Your task to perform on an android device: How much does a 3 bedroom apartment rent for in Chicago? Image 0: 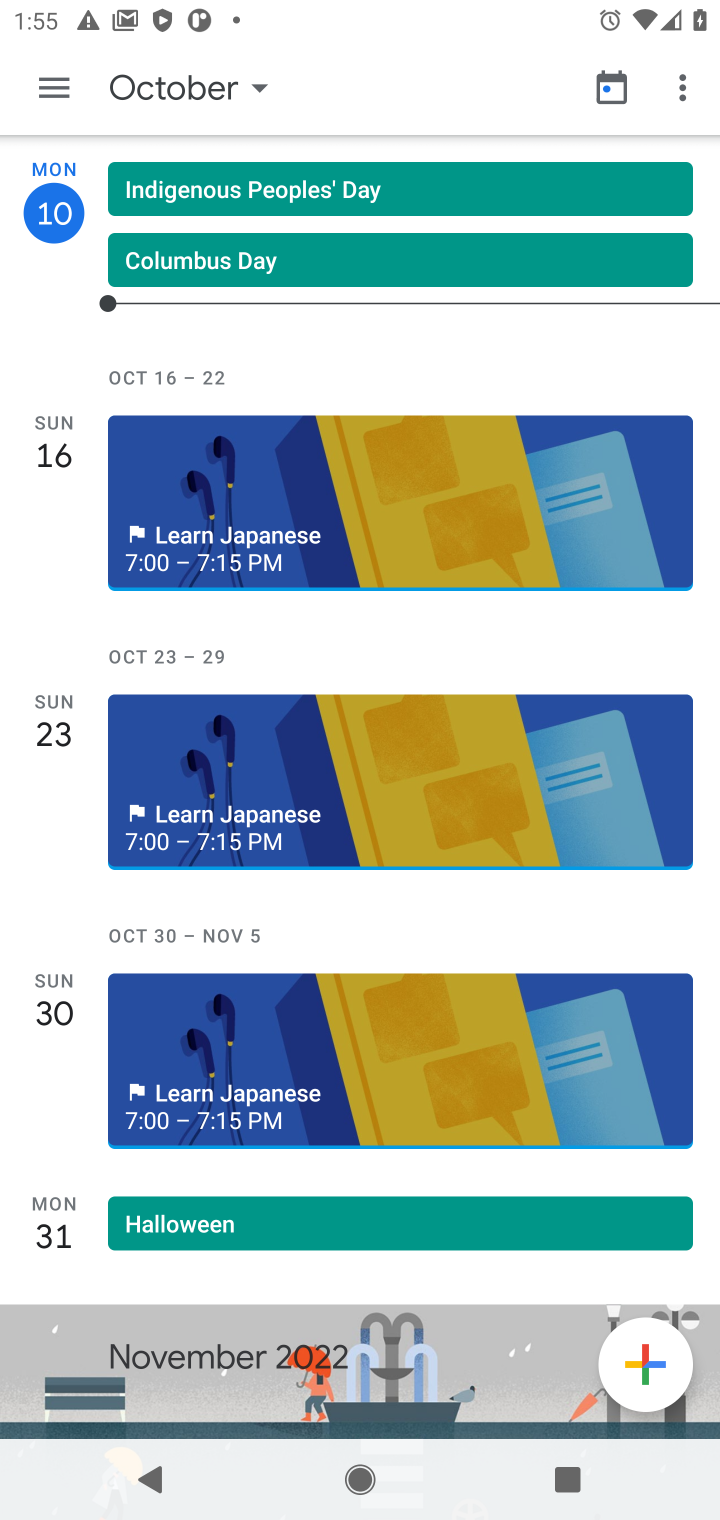
Step 0: press home button
Your task to perform on an android device: How much does a 3 bedroom apartment rent for in Chicago? Image 1: 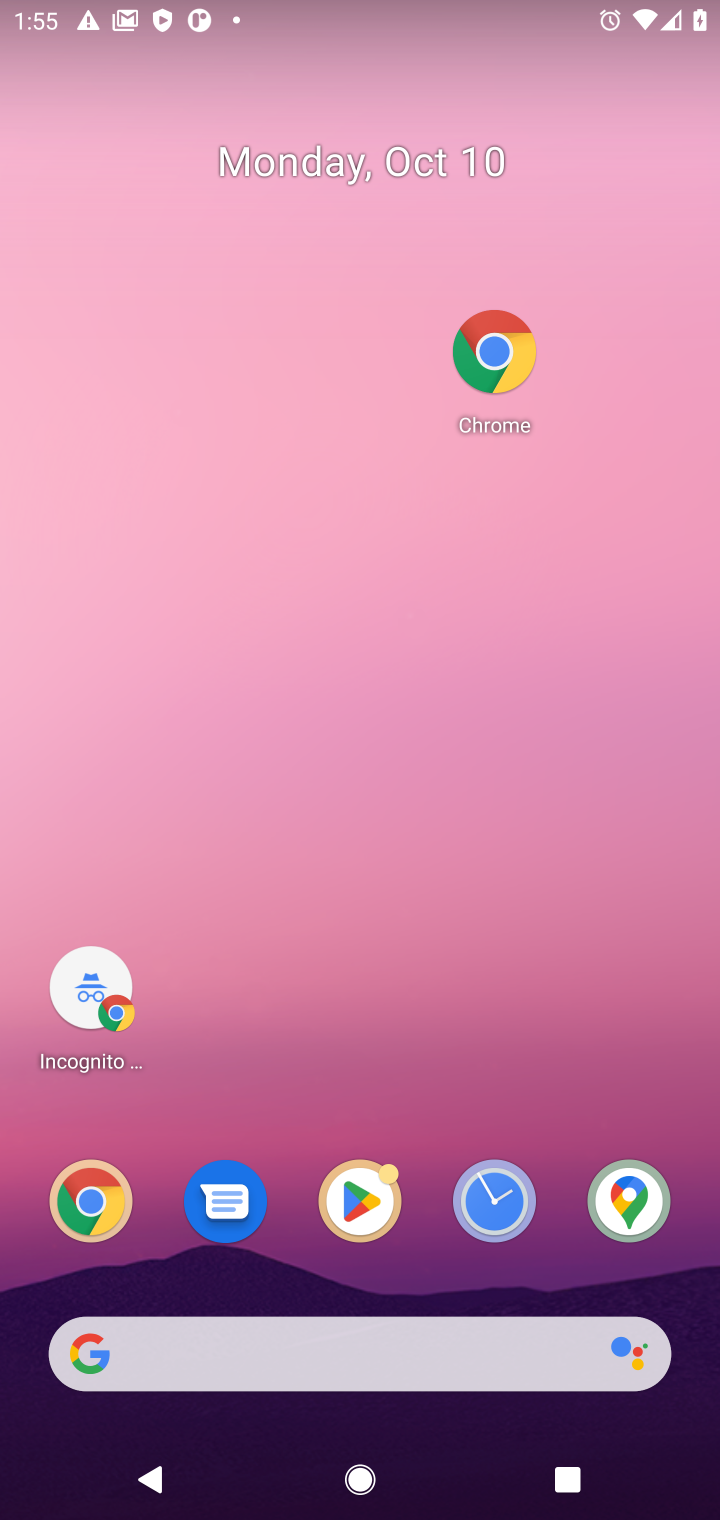
Step 1: click (487, 357)
Your task to perform on an android device: How much does a 3 bedroom apartment rent for in Chicago? Image 2: 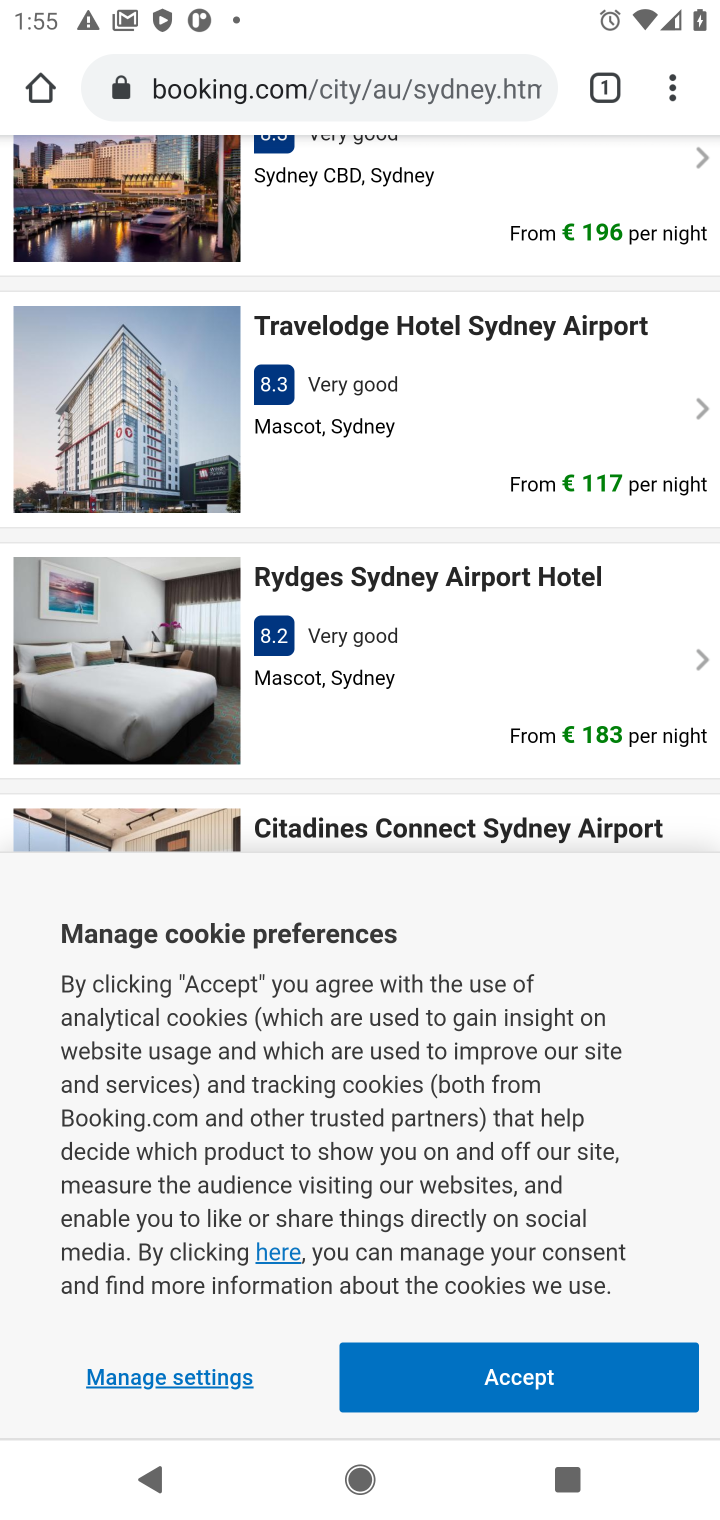
Step 2: click (344, 86)
Your task to perform on an android device: How much does a 3 bedroom apartment rent for in Chicago? Image 3: 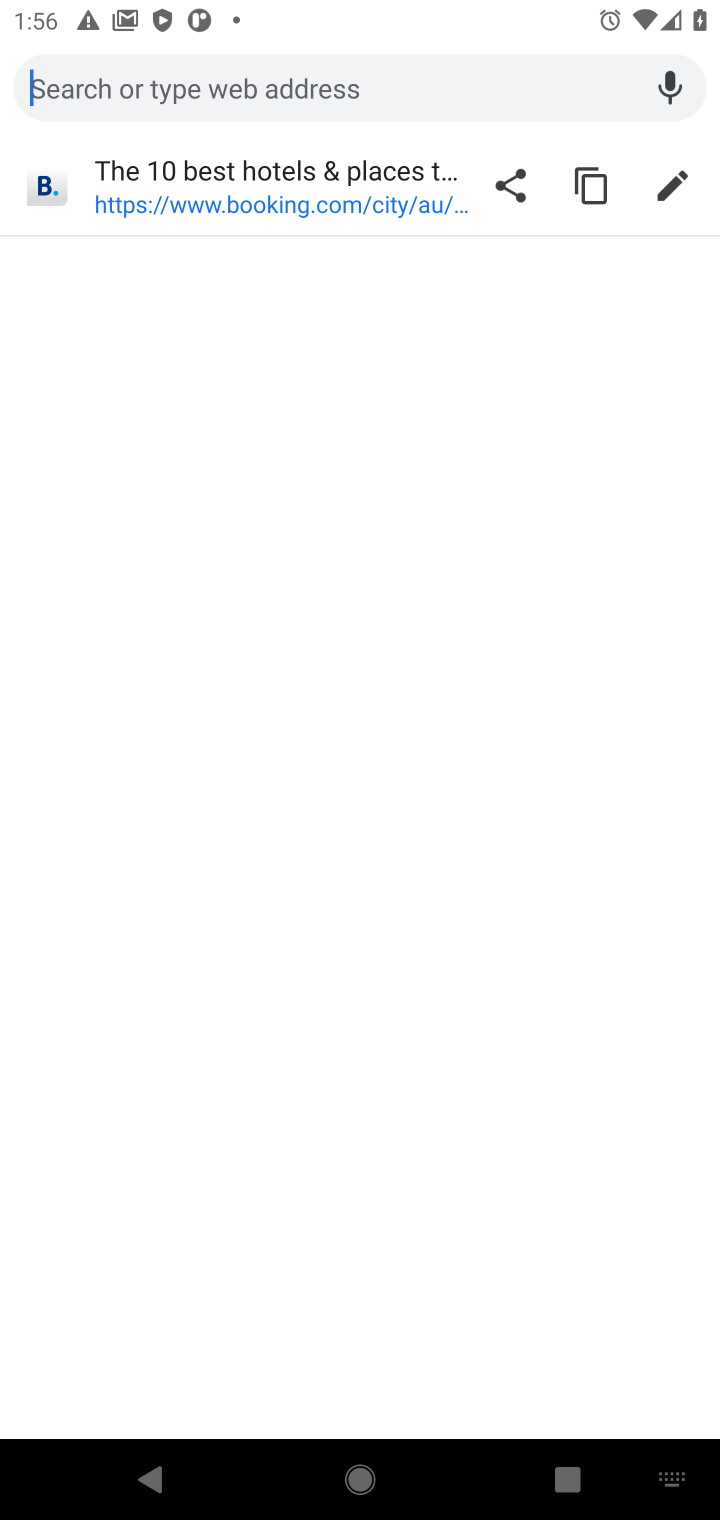
Step 3: type "rent for 3 bedroom apartment in chicago"
Your task to perform on an android device: How much does a 3 bedroom apartment rent for in Chicago? Image 4: 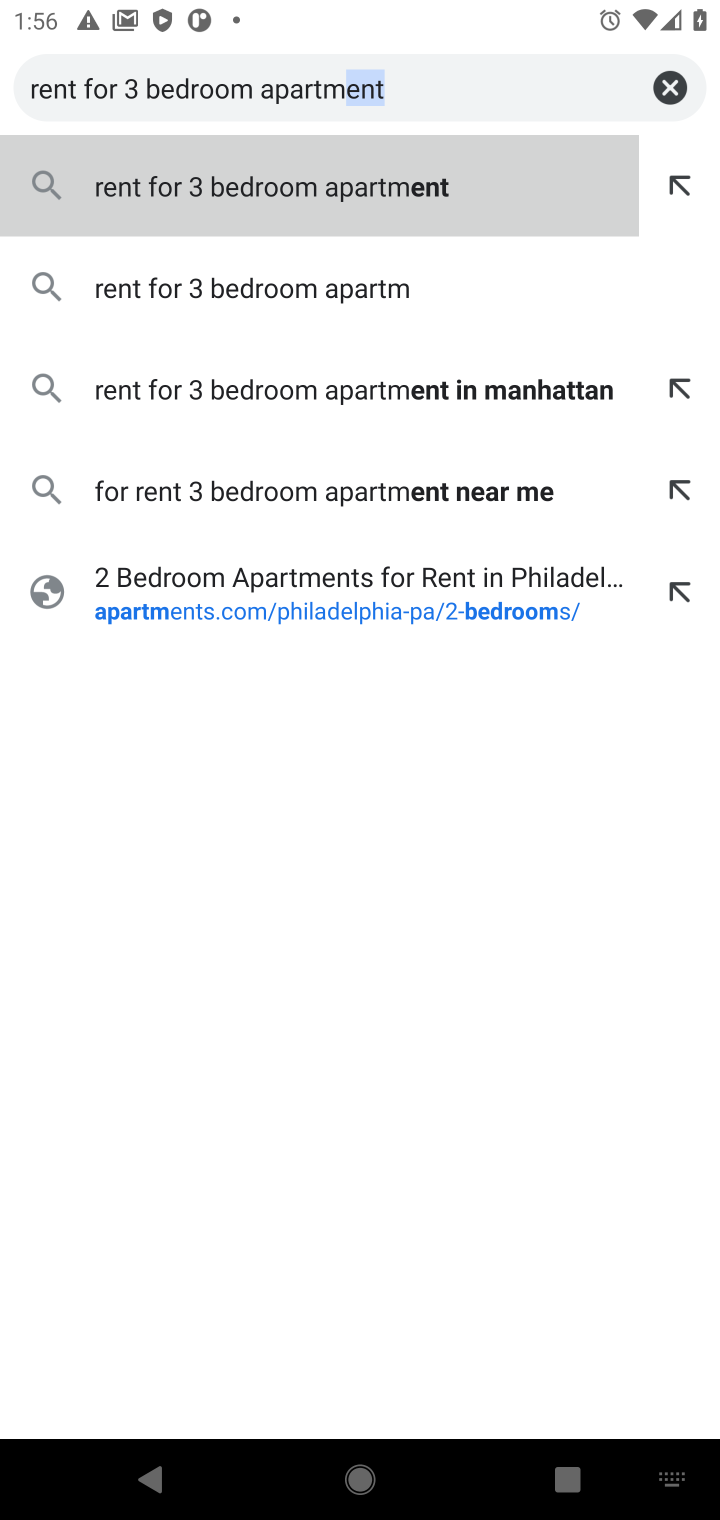
Step 4: click (411, 95)
Your task to perform on an android device: How much does a 3 bedroom apartment rent for in Chicago? Image 5: 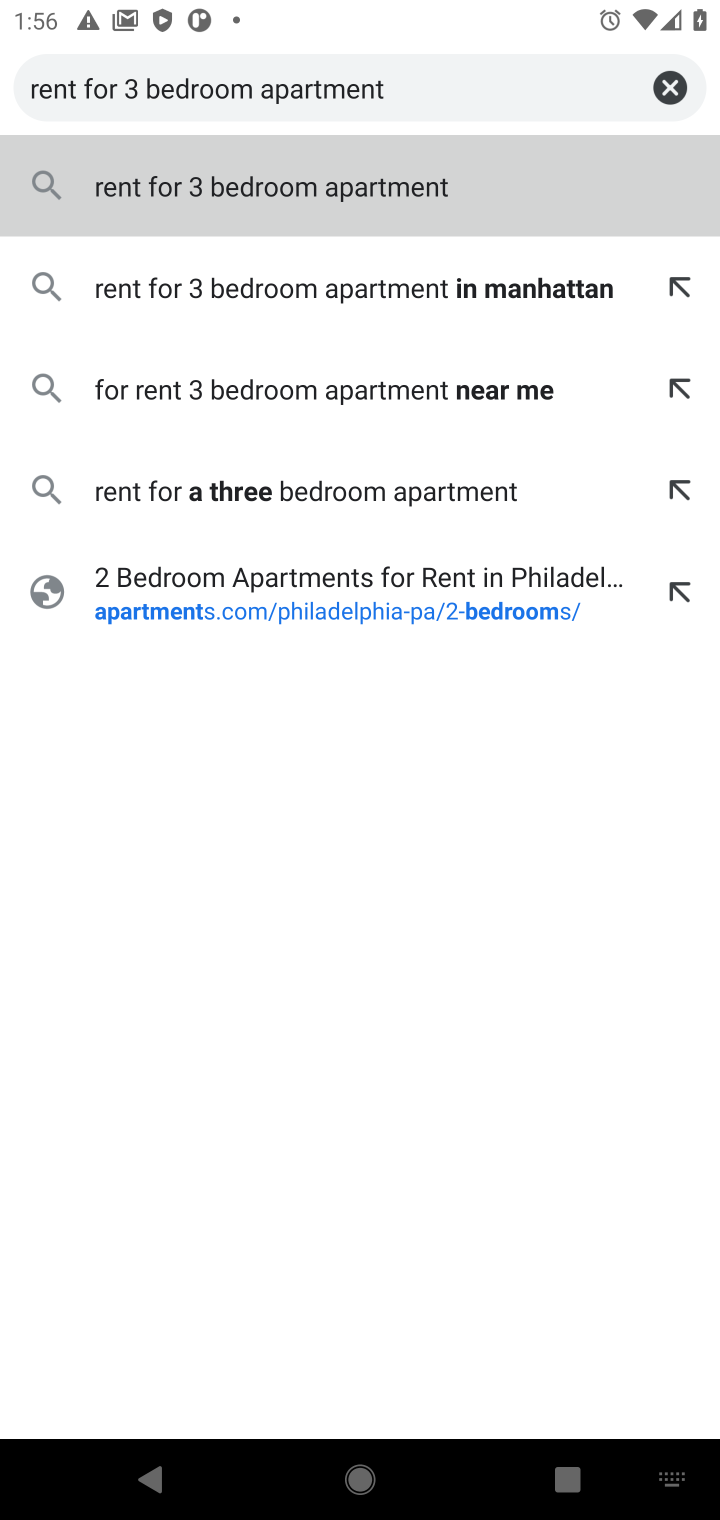
Step 5: type " in chicago"
Your task to perform on an android device: How much does a 3 bedroom apartment rent for in Chicago? Image 6: 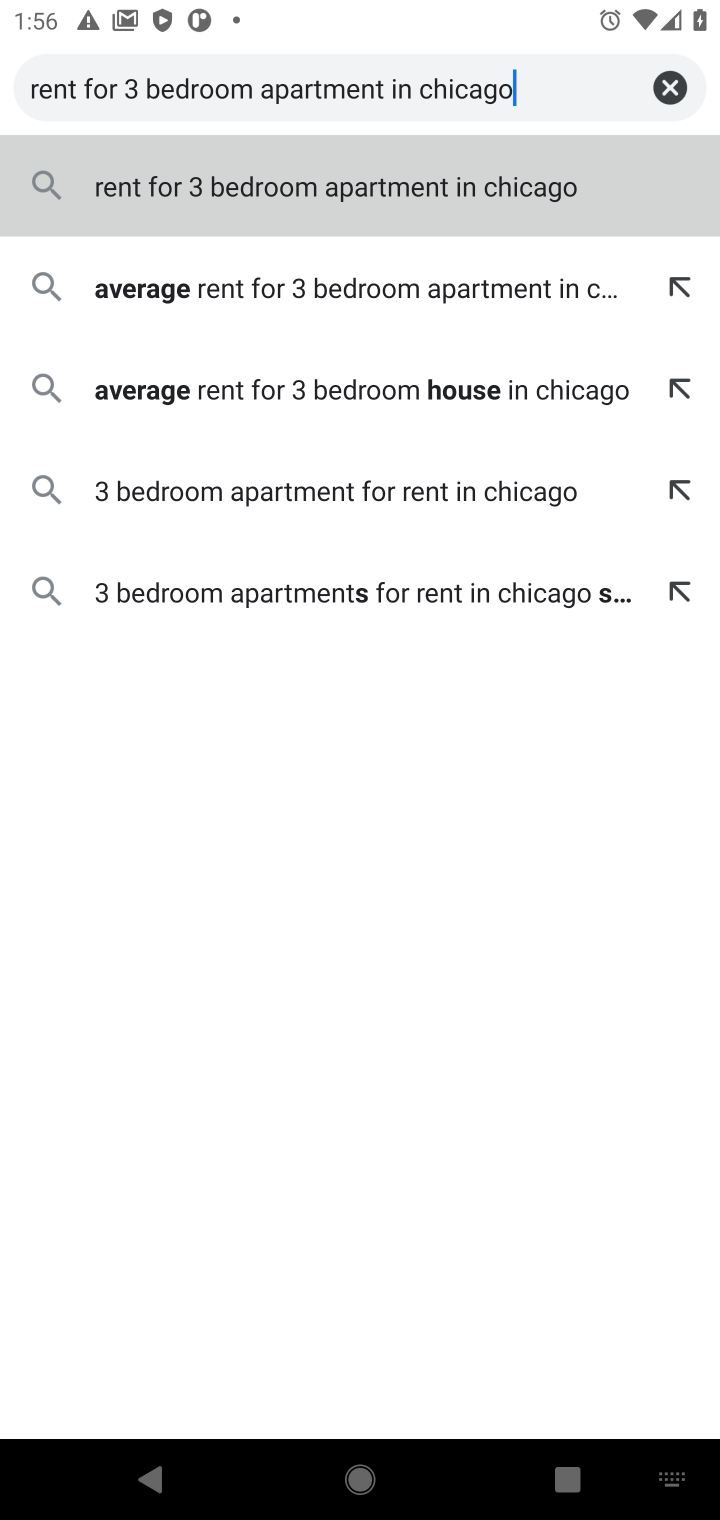
Step 6: click (402, 182)
Your task to perform on an android device: How much does a 3 bedroom apartment rent for in Chicago? Image 7: 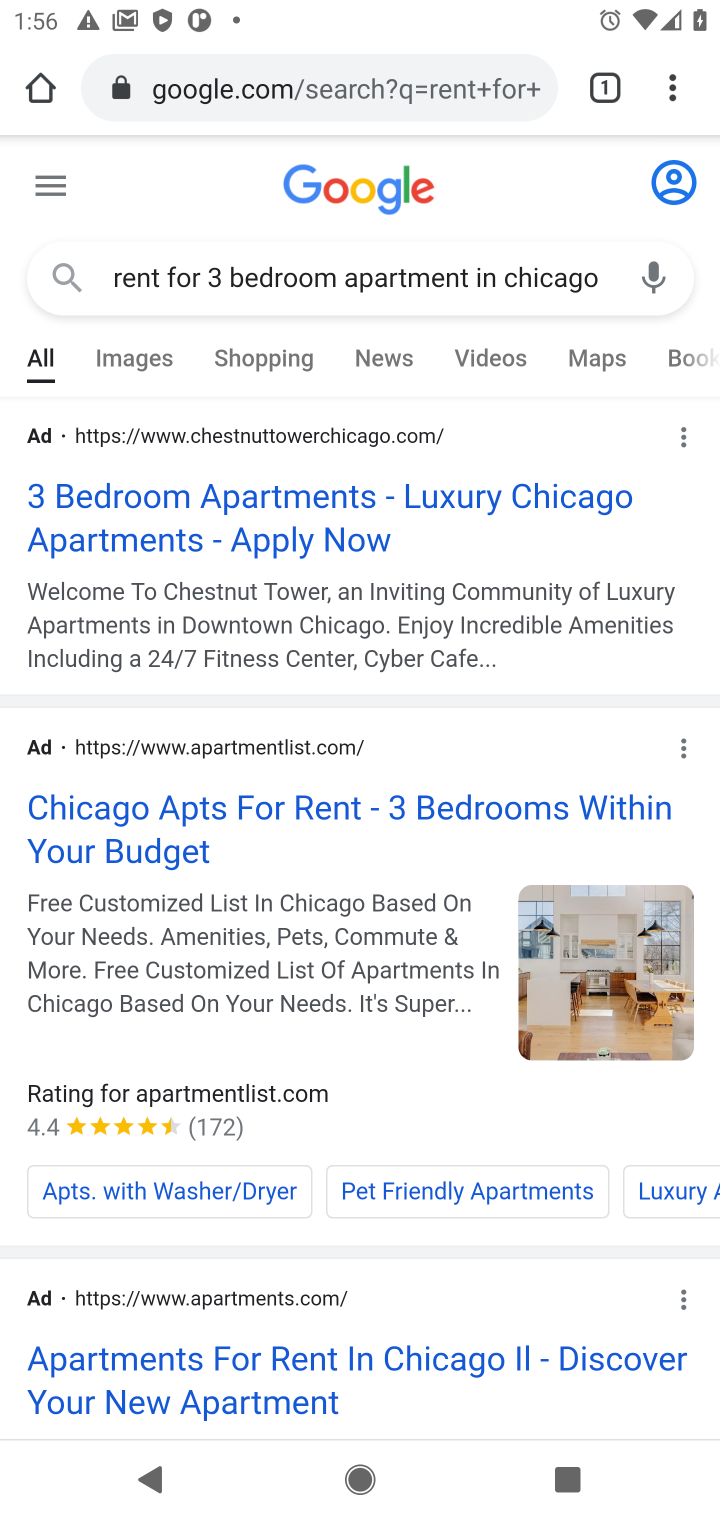
Step 7: click (214, 542)
Your task to perform on an android device: How much does a 3 bedroom apartment rent for in Chicago? Image 8: 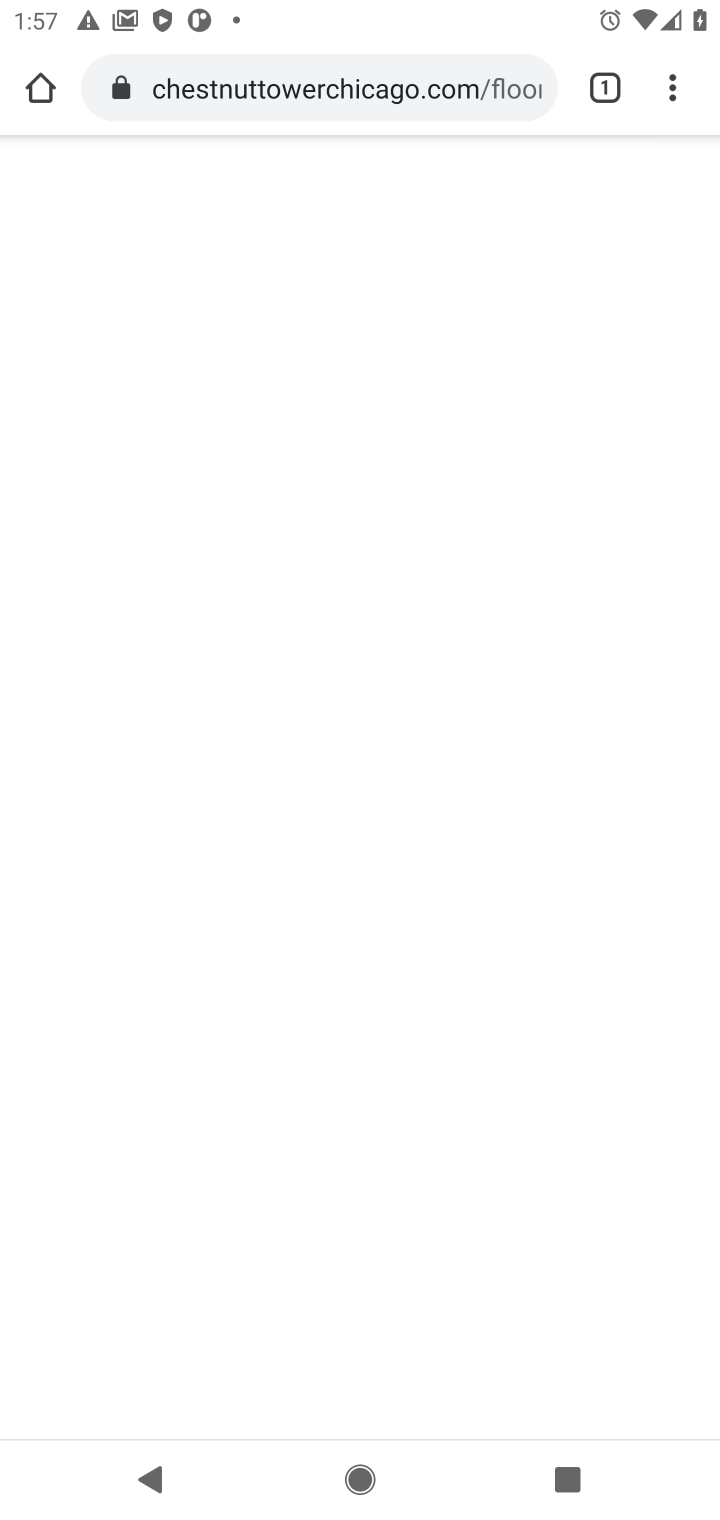
Step 8: press back button
Your task to perform on an android device: How much does a 3 bedroom apartment rent for in Chicago? Image 9: 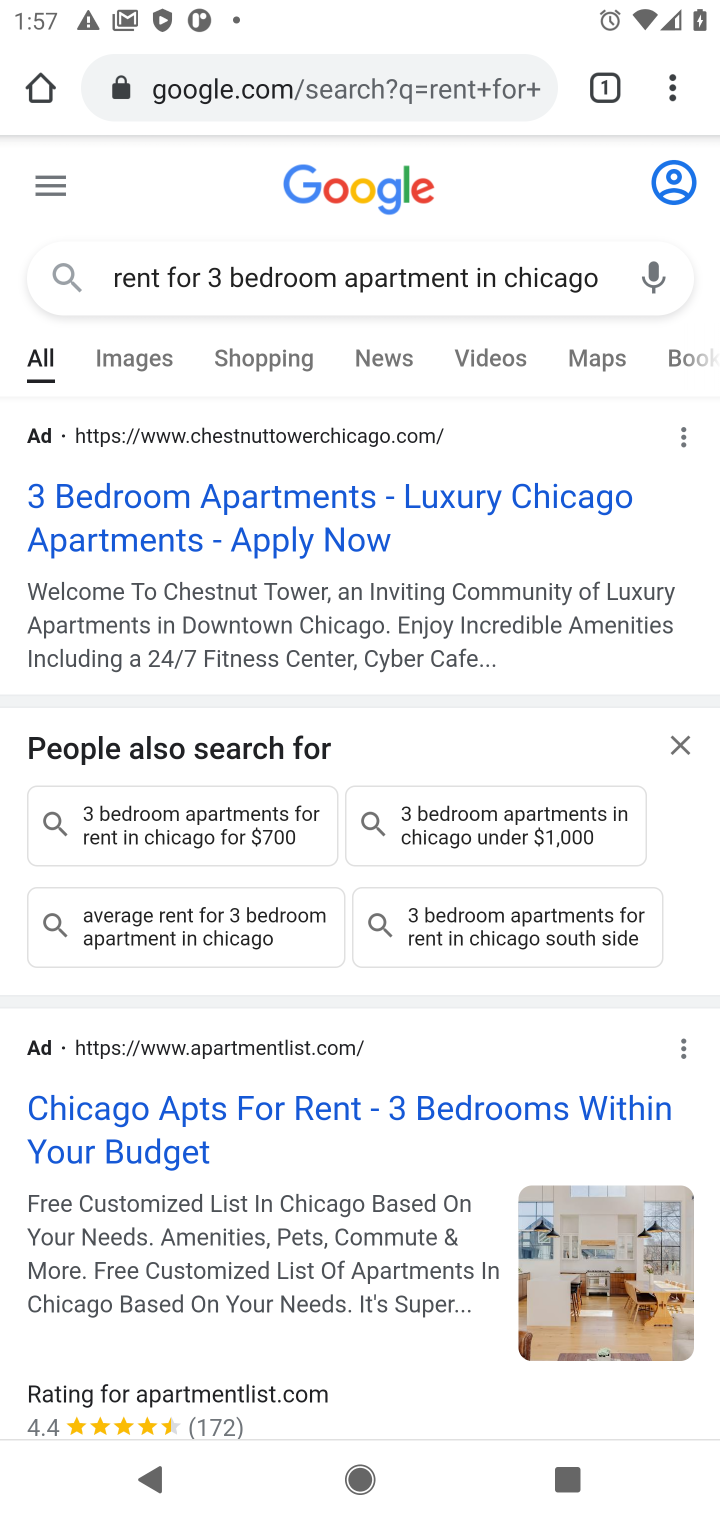
Step 9: drag from (293, 1280) to (354, 869)
Your task to perform on an android device: How much does a 3 bedroom apartment rent for in Chicago? Image 10: 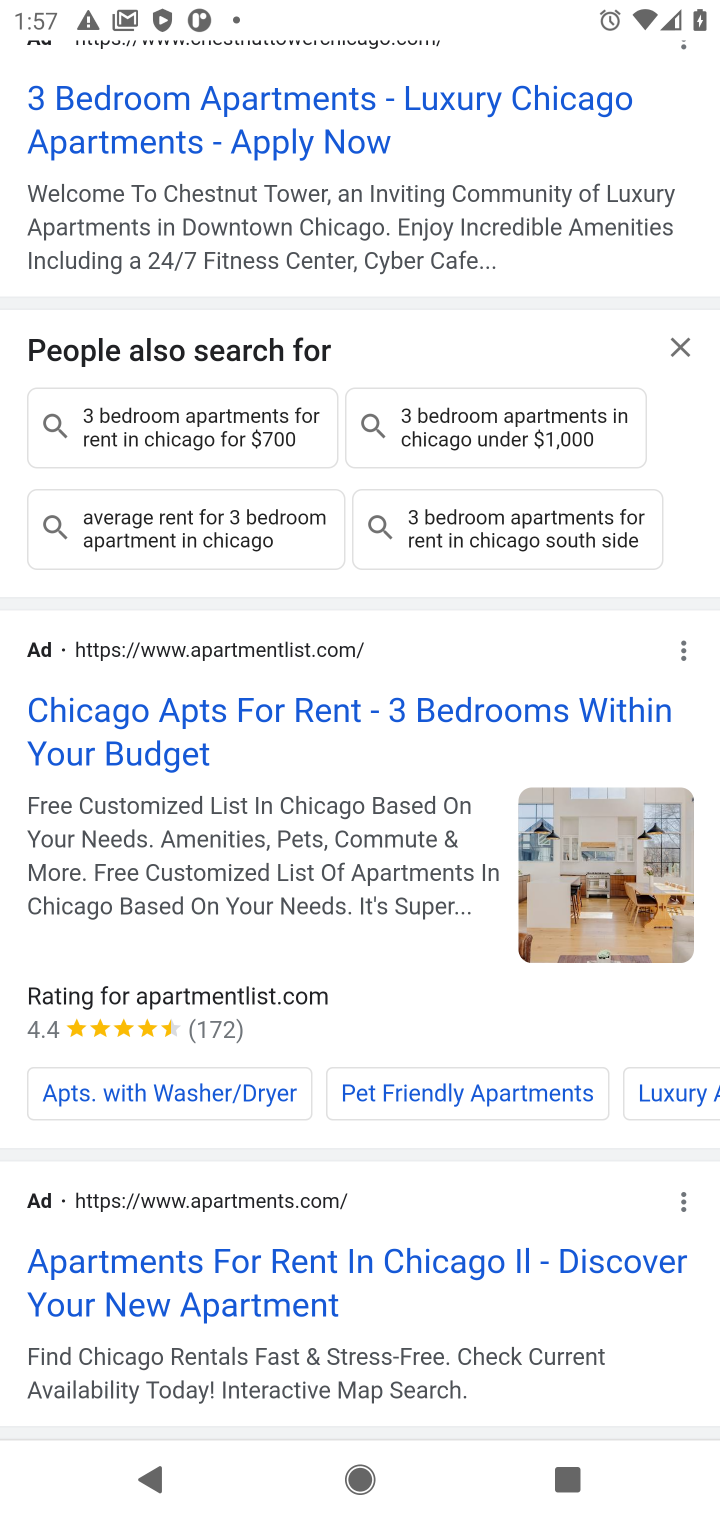
Step 10: click (206, 434)
Your task to perform on an android device: How much does a 3 bedroom apartment rent for in Chicago? Image 11: 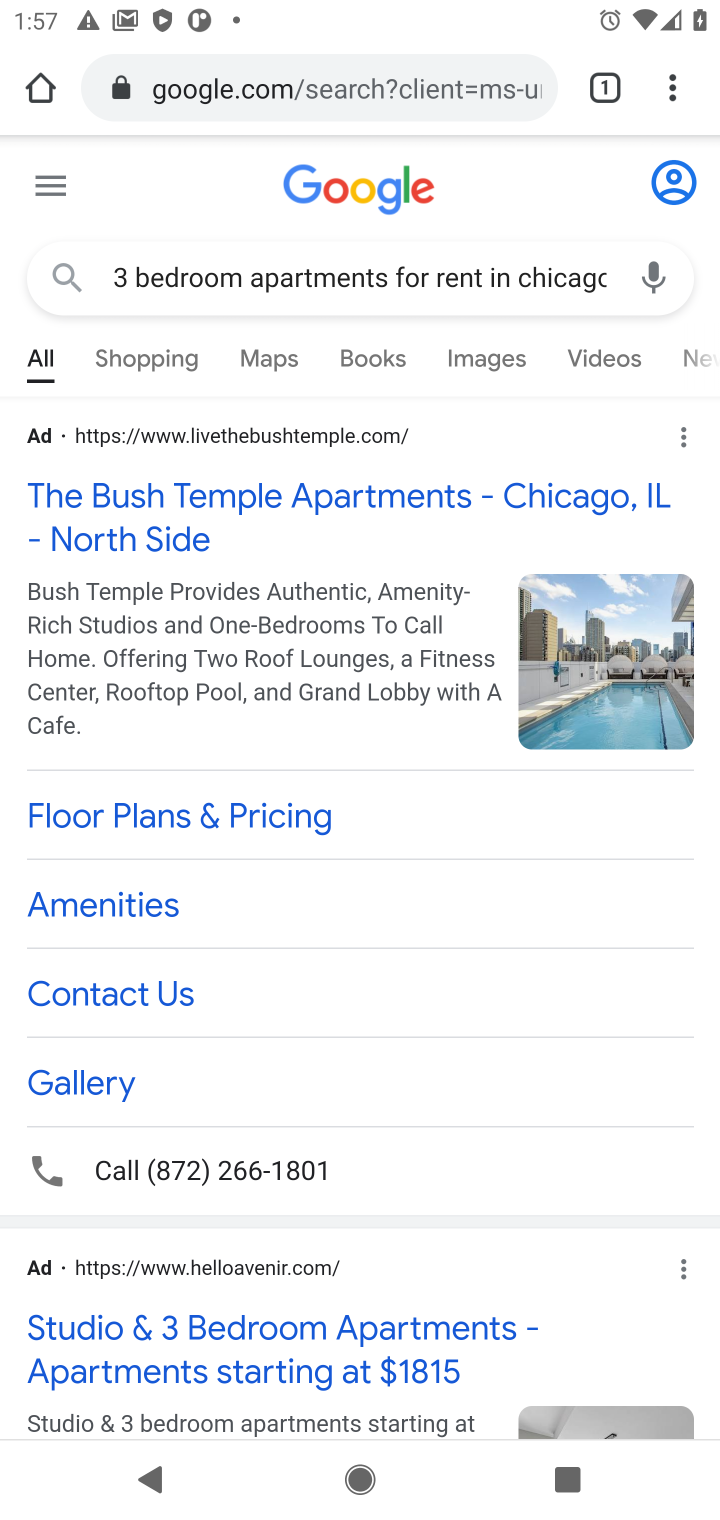
Step 11: drag from (243, 971) to (290, 539)
Your task to perform on an android device: How much does a 3 bedroom apartment rent for in Chicago? Image 12: 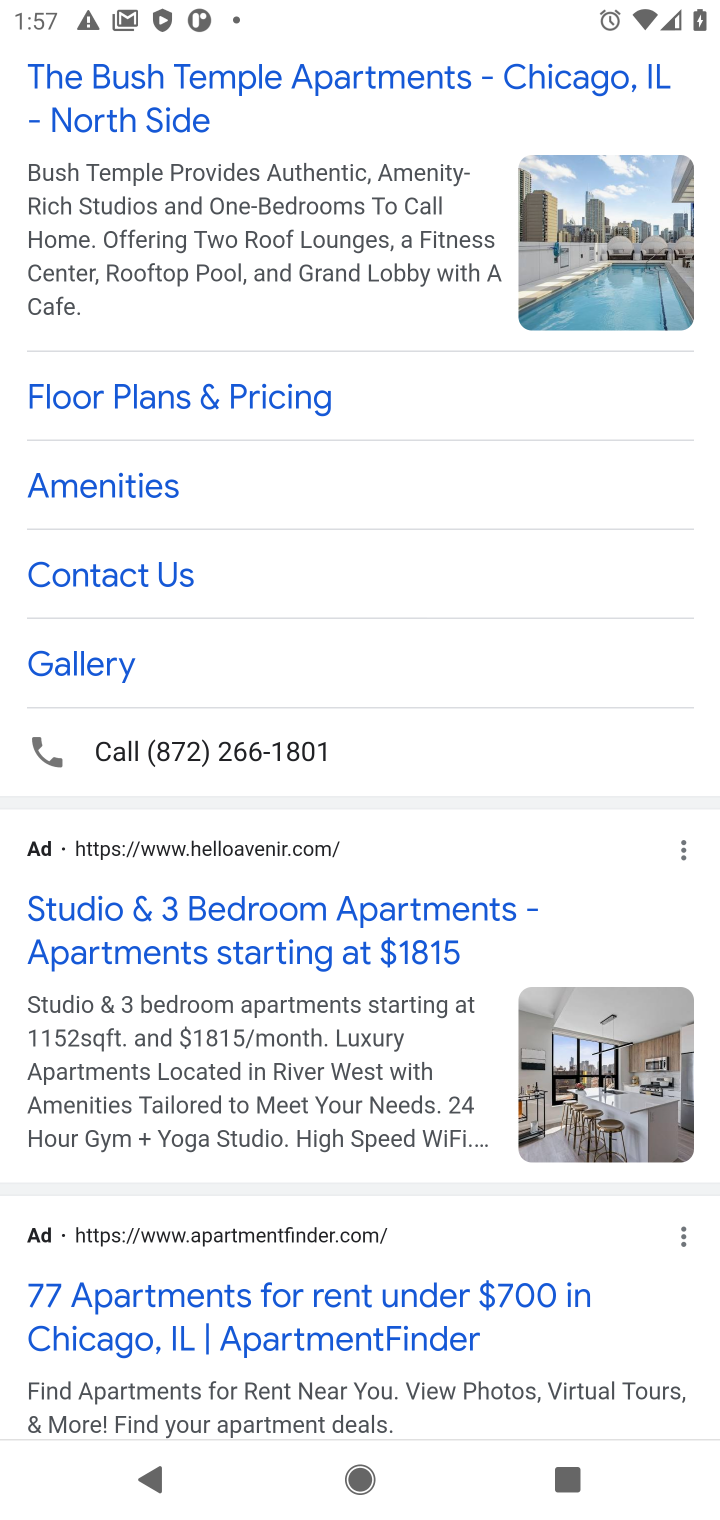
Step 12: click (219, 951)
Your task to perform on an android device: How much does a 3 bedroom apartment rent for in Chicago? Image 13: 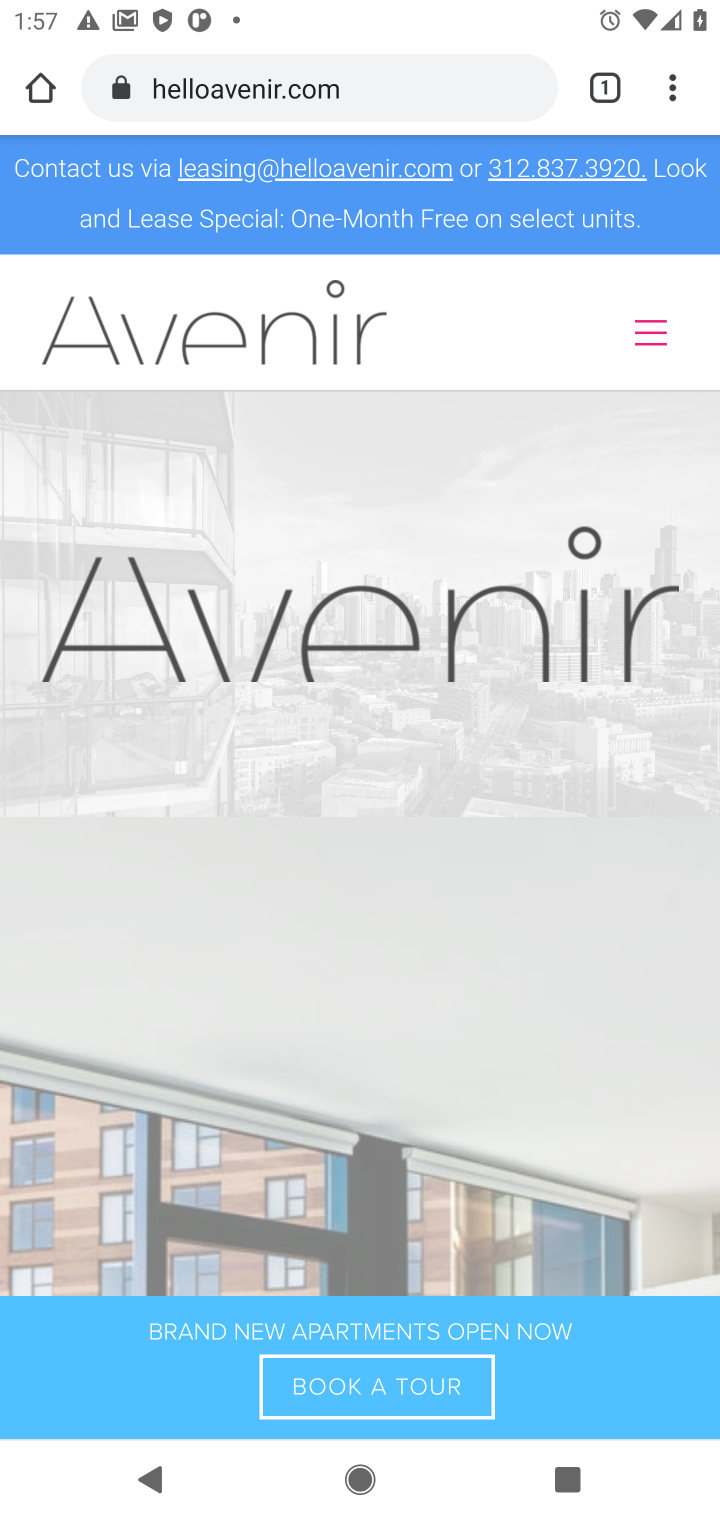
Step 13: drag from (466, 963) to (468, 410)
Your task to perform on an android device: How much does a 3 bedroom apartment rent for in Chicago? Image 14: 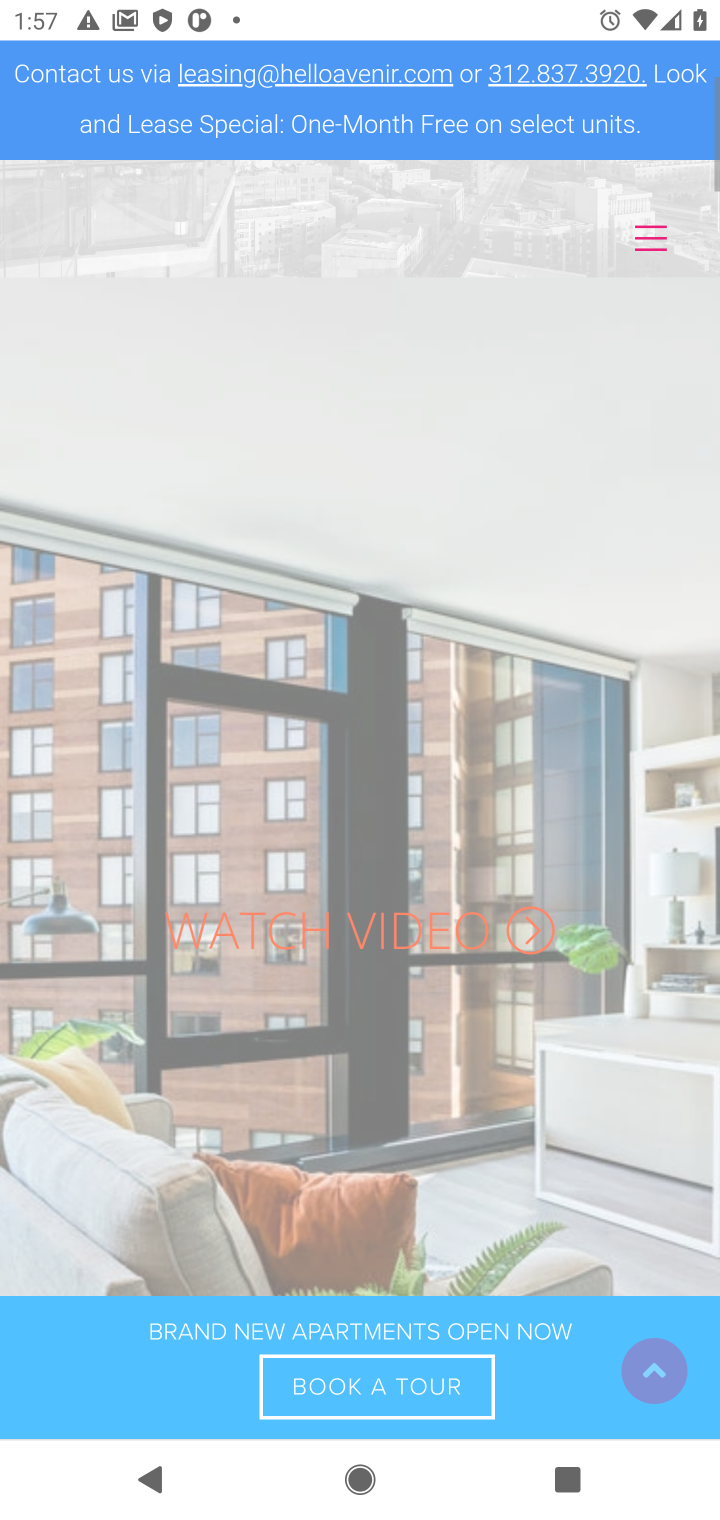
Step 14: drag from (466, 1062) to (483, 389)
Your task to perform on an android device: How much does a 3 bedroom apartment rent for in Chicago? Image 15: 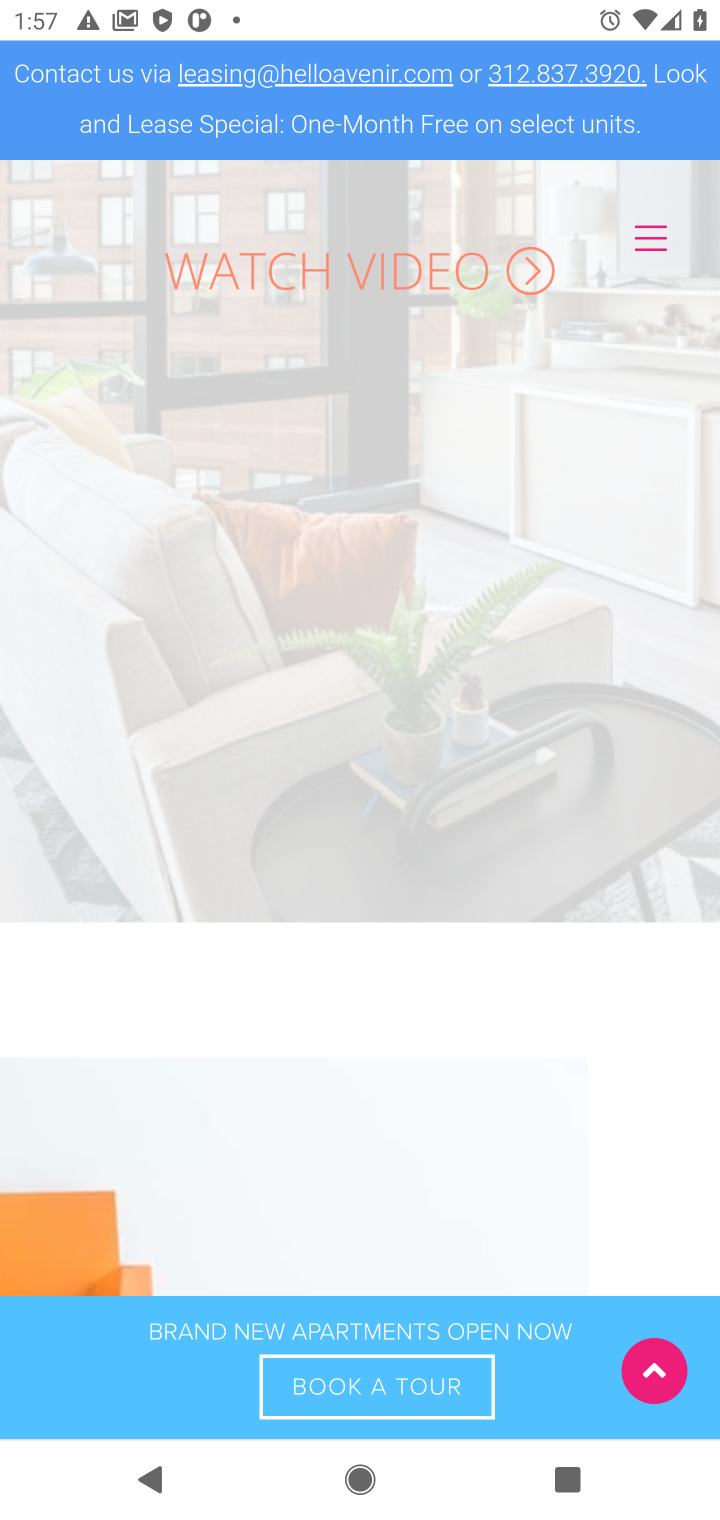
Step 15: drag from (341, 929) to (436, 287)
Your task to perform on an android device: How much does a 3 bedroom apartment rent for in Chicago? Image 16: 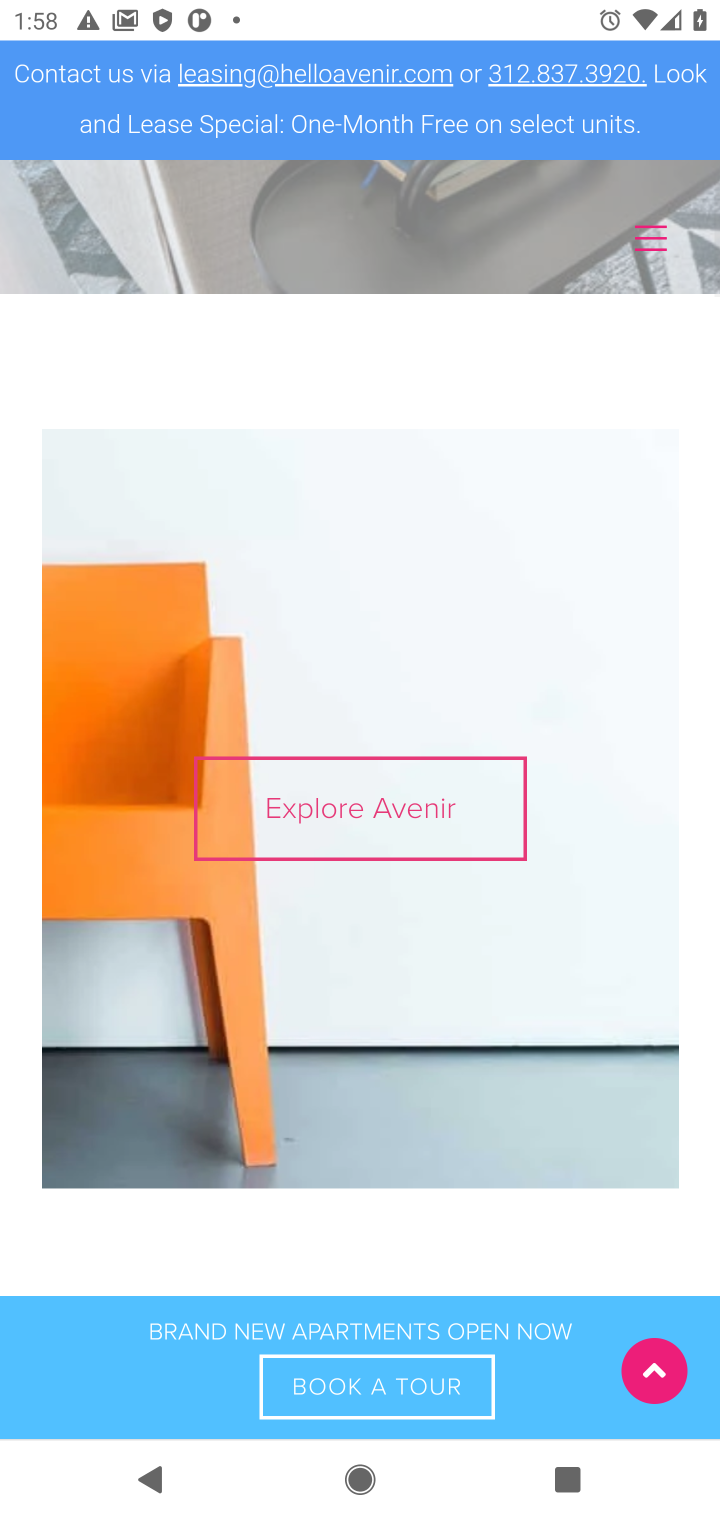
Step 16: drag from (460, 1093) to (489, 272)
Your task to perform on an android device: How much does a 3 bedroom apartment rent for in Chicago? Image 17: 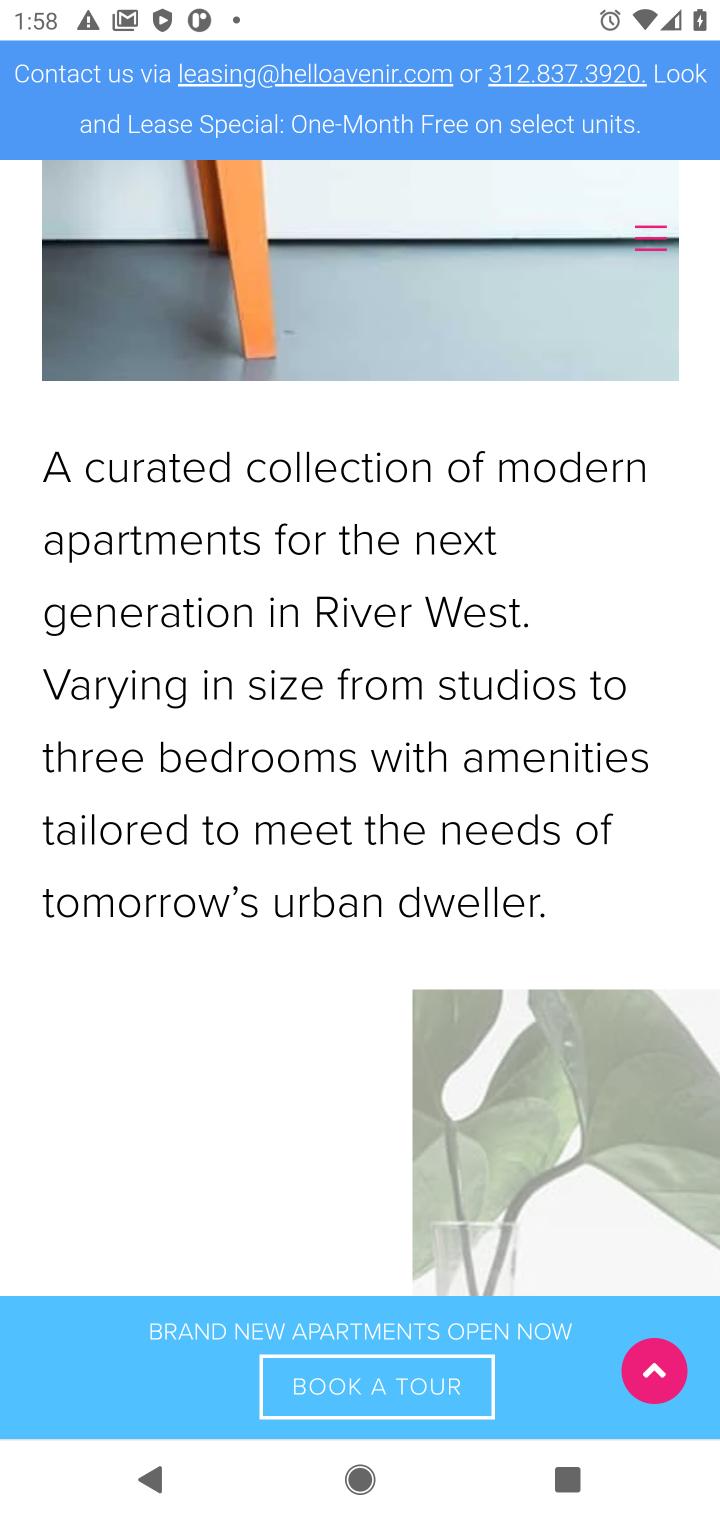
Step 17: drag from (453, 1019) to (489, 381)
Your task to perform on an android device: How much does a 3 bedroom apartment rent for in Chicago? Image 18: 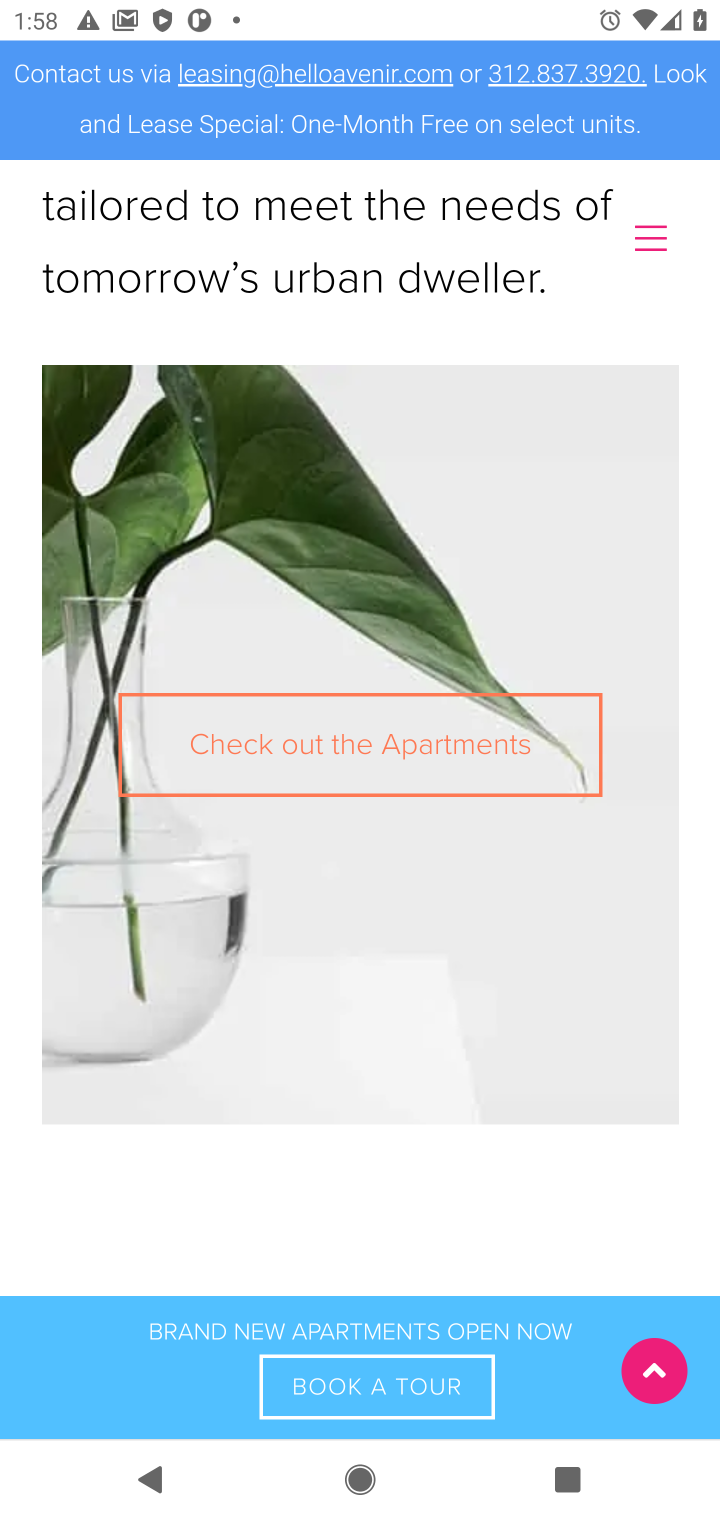
Step 18: drag from (410, 938) to (436, 452)
Your task to perform on an android device: How much does a 3 bedroom apartment rent for in Chicago? Image 19: 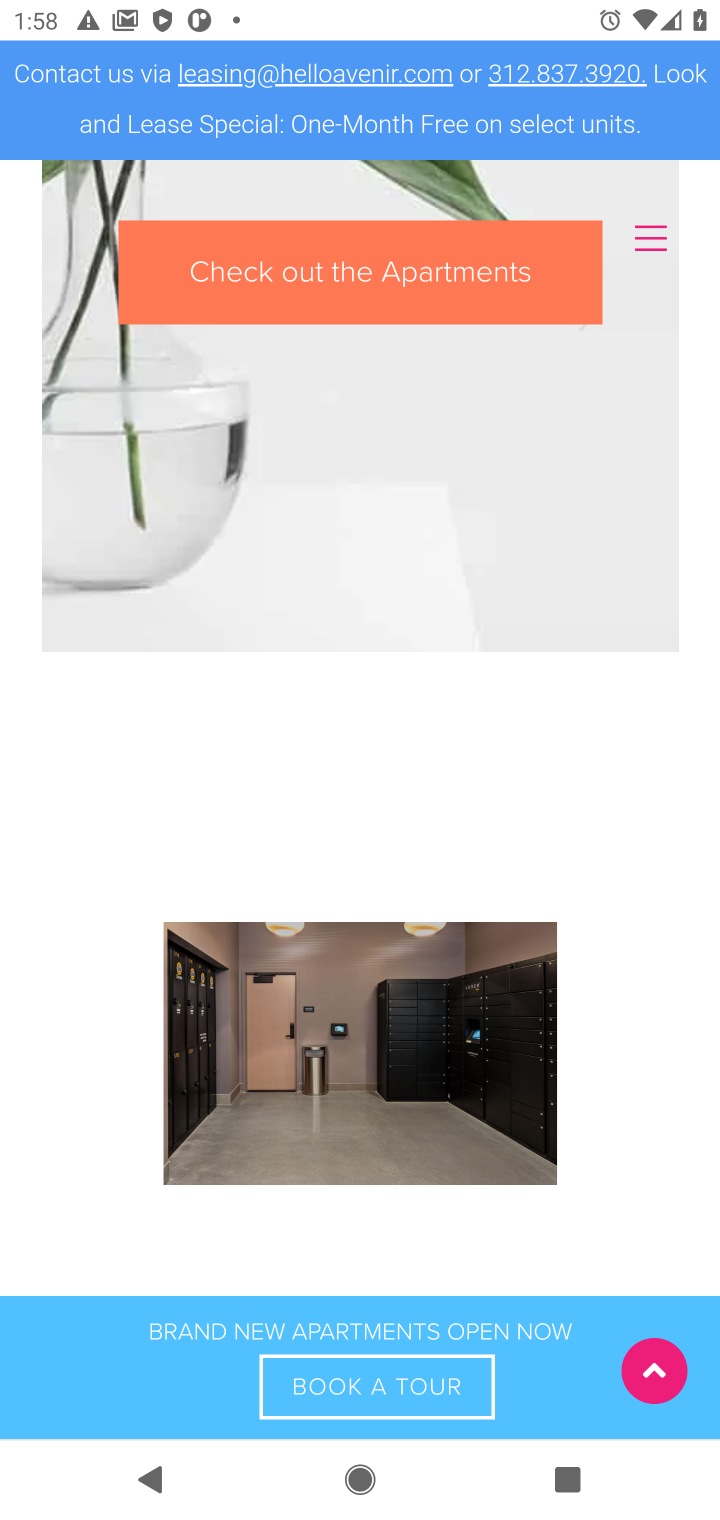
Step 19: drag from (458, 981) to (505, 261)
Your task to perform on an android device: How much does a 3 bedroom apartment rent for in Chicago? Image 20: 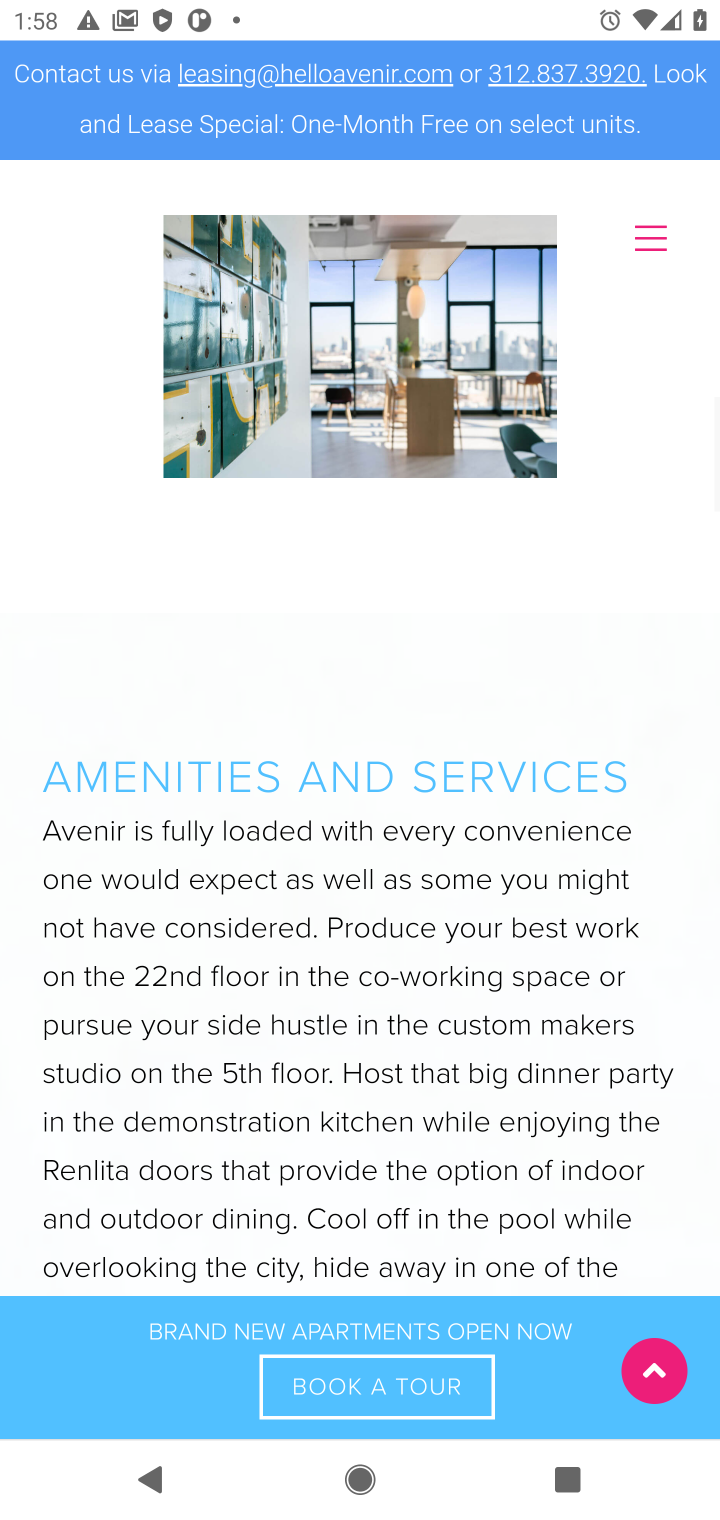
Step 20: drag from (406, 1035) to (451, 336)
Your task to perform on an android device: How much does a 3 bedroom apartment rent for in Chicago? Image 21: 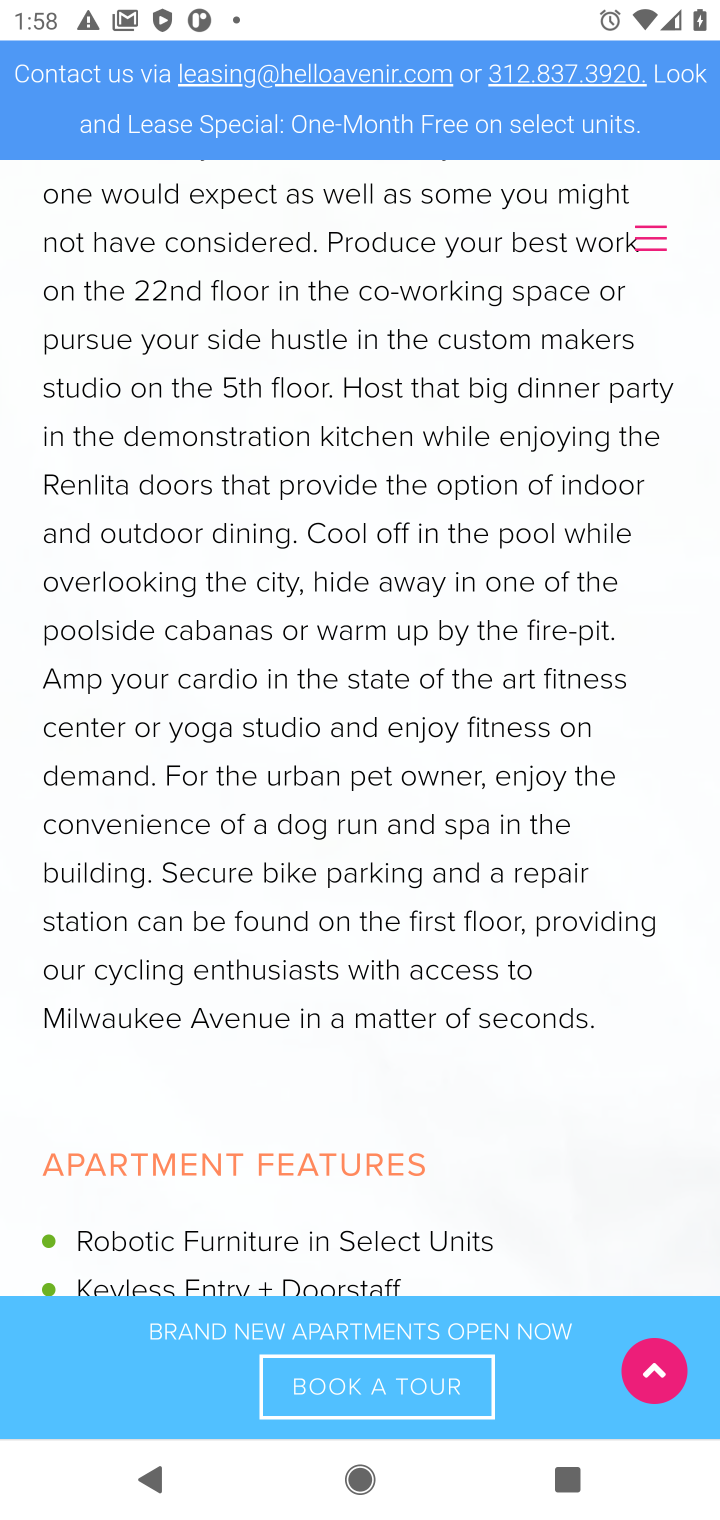
Step 21: drag from (445, 935) to (454, 208)
Your task to perform on an android device: How much does a 3 bedroom apartment rent for in Chicago? Image 22: 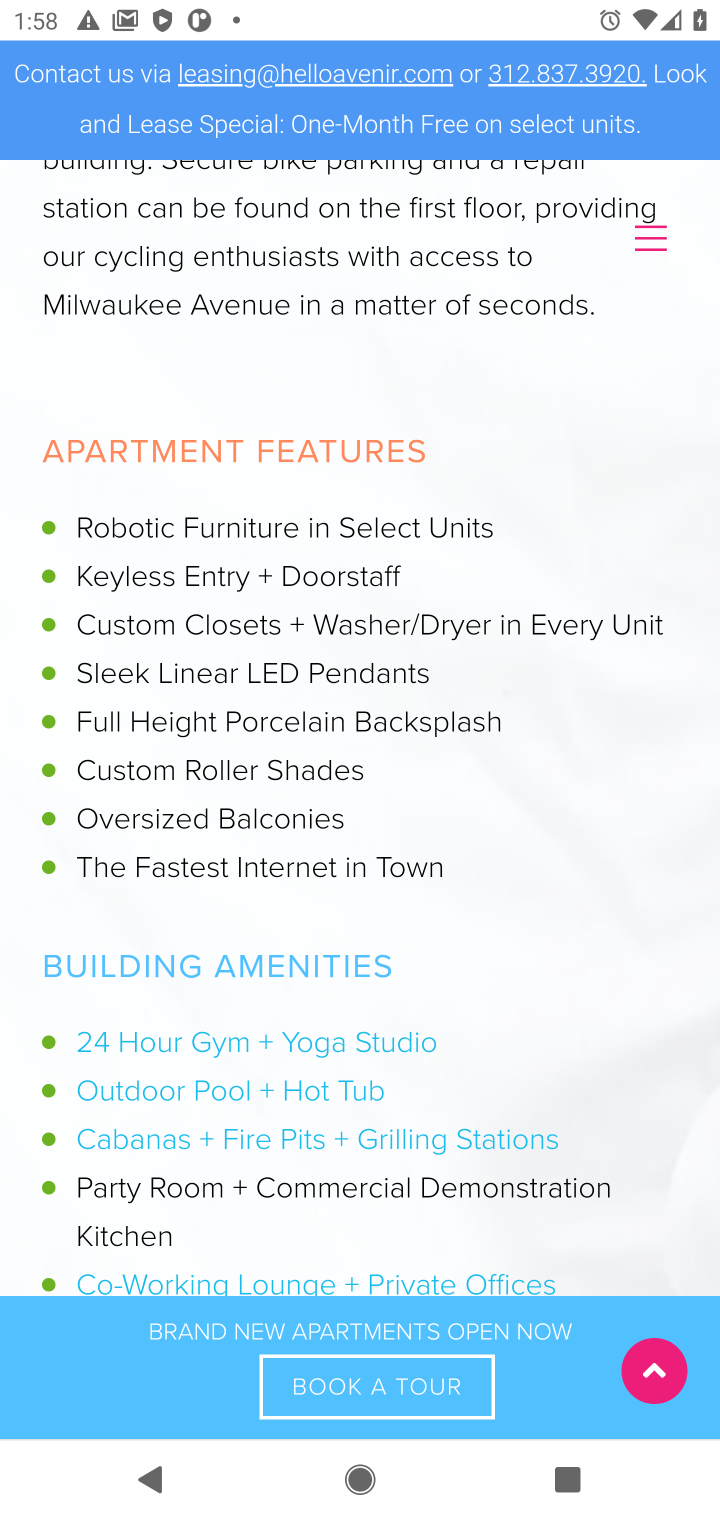
Step 22: drag from (420, 1030) to (464, 400)
Your task to perform on an android device: How much does a 3 bedroom apartment rent for in Chicago? Image 23: 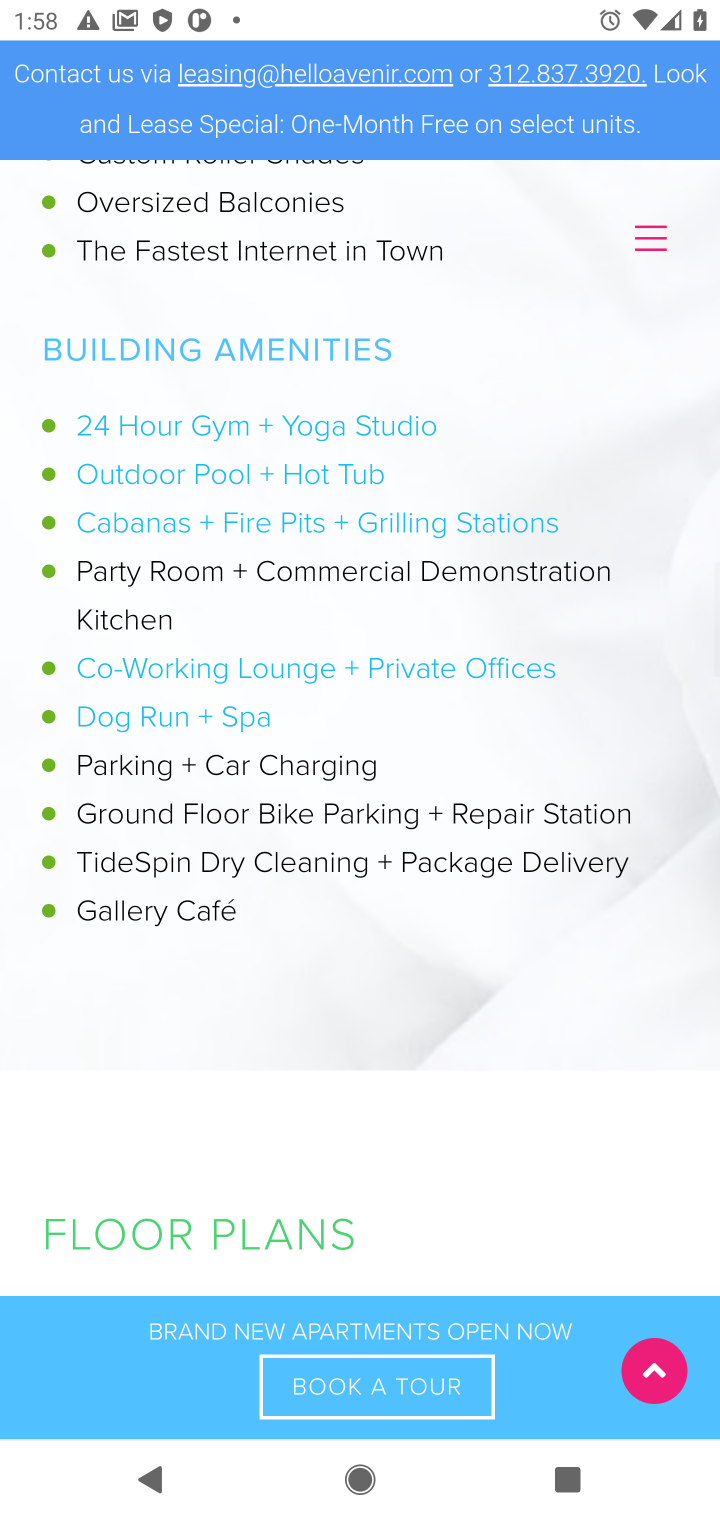
Step 23: drag from (416, 943) to (458, 324)
Your task to perform on an android device: How much does a 3 bedroom apartment rent for in Chicago? Image 24: 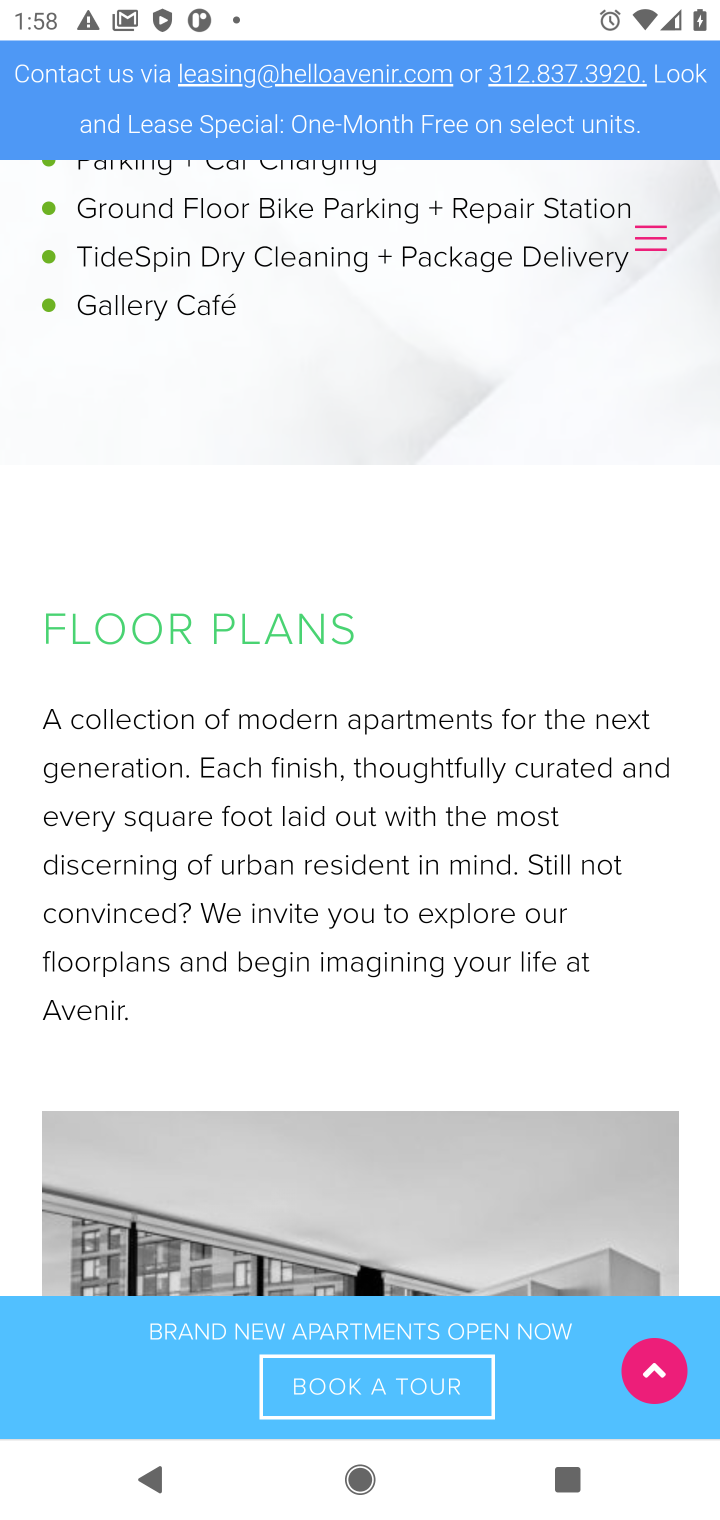
Step 24: drag from (419, 987) to (487, 287)
Your task to perform on an android device: How much does a 3 bedroom apartment rent for in Chicago? Image 25: 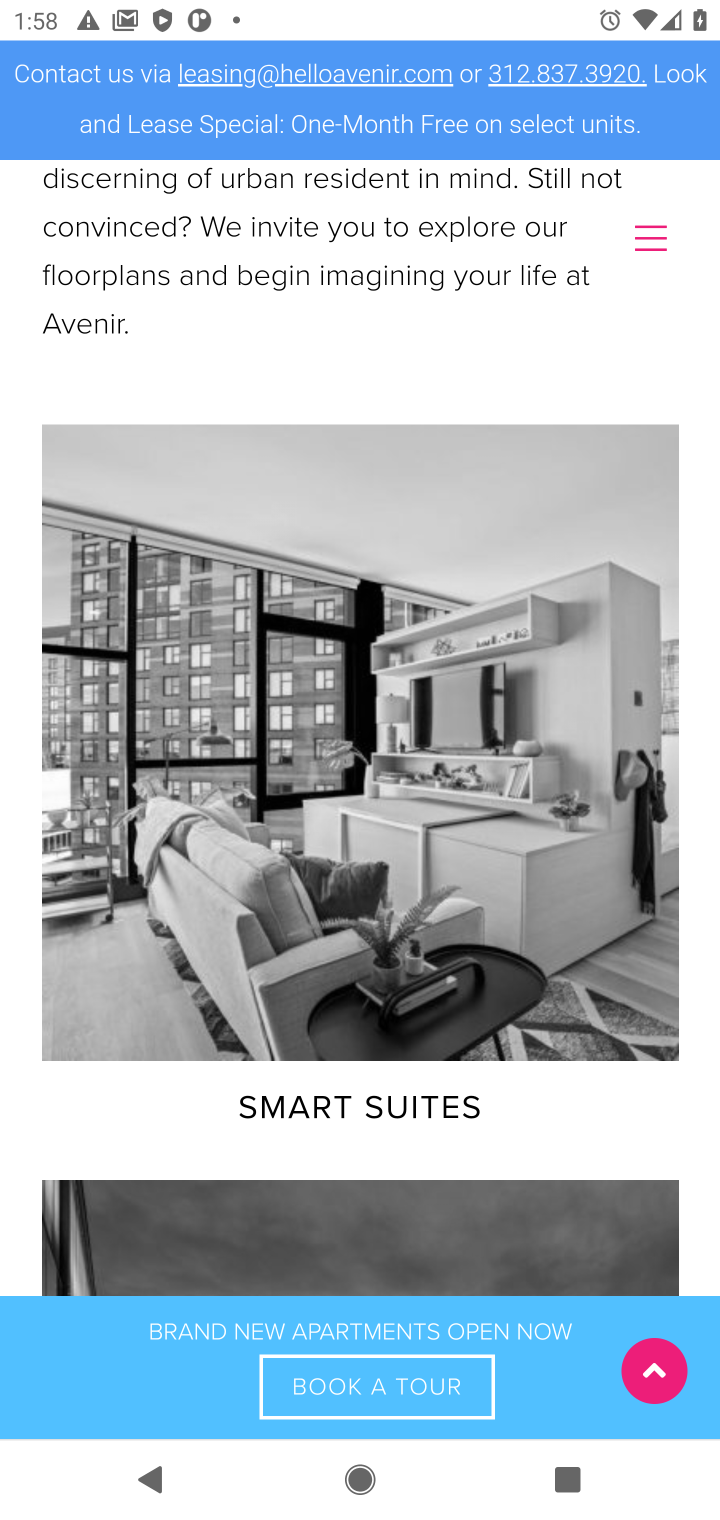
Step 25: press back button
Your task to perform on an android device: How much does a 3 bedroom apartment rent for in Chicago? Image 26: 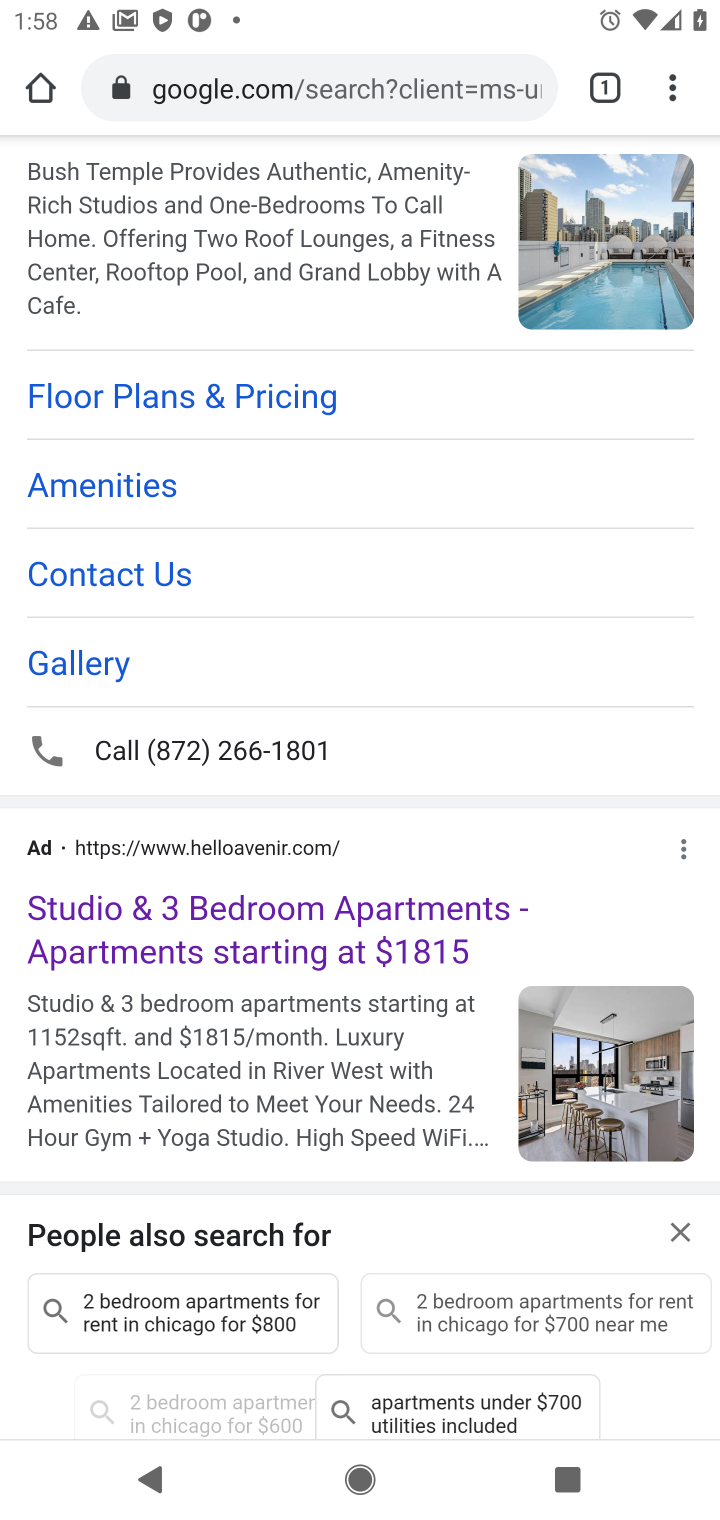
Step 26: drag from (298, 974) to (340, 480)
Your task to perform on an android device: How much does a 3 bedroom apartment rent for in Chicago? Image 27: 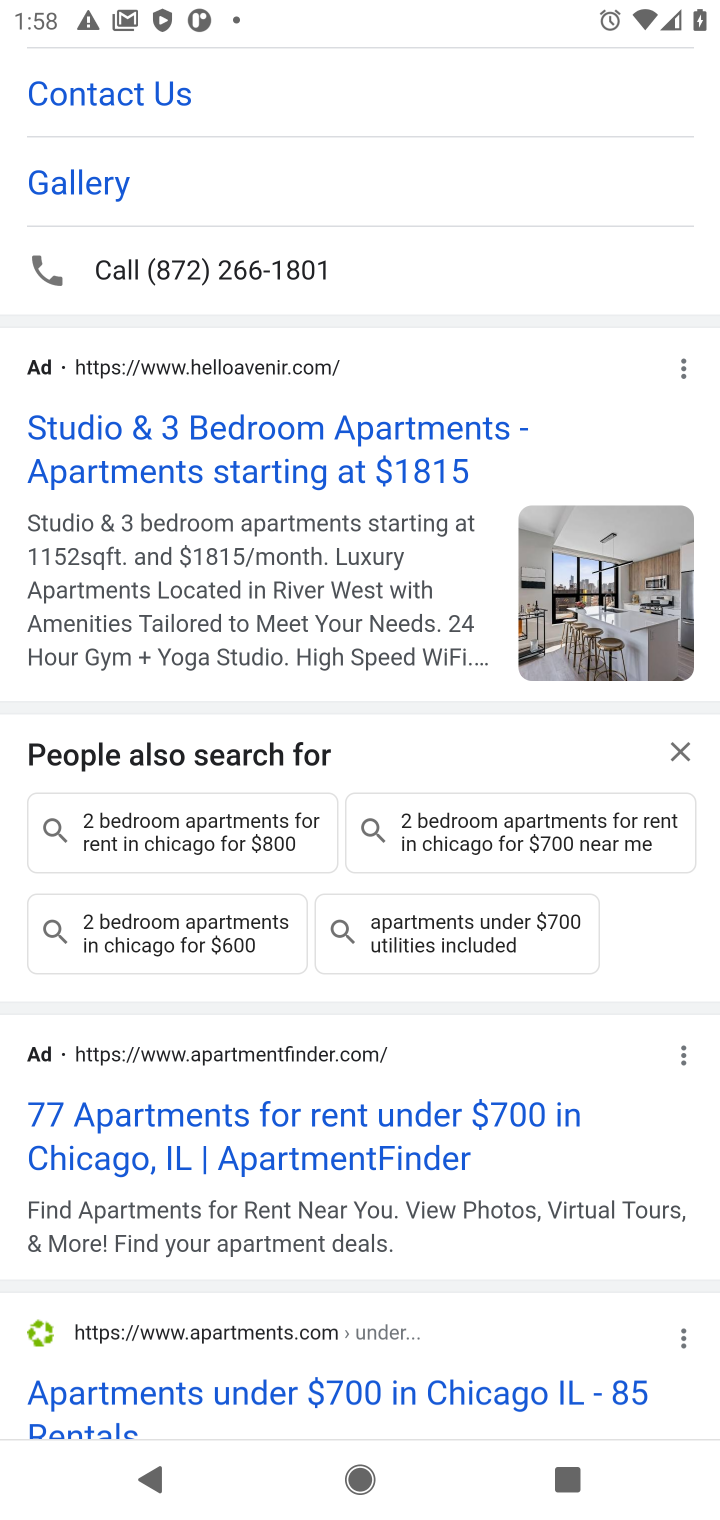
Step 27: click (316, 1156)
Your task to perform on an android device: How much does a 3 bedroom apartment rent for in Chicago? Image 28: 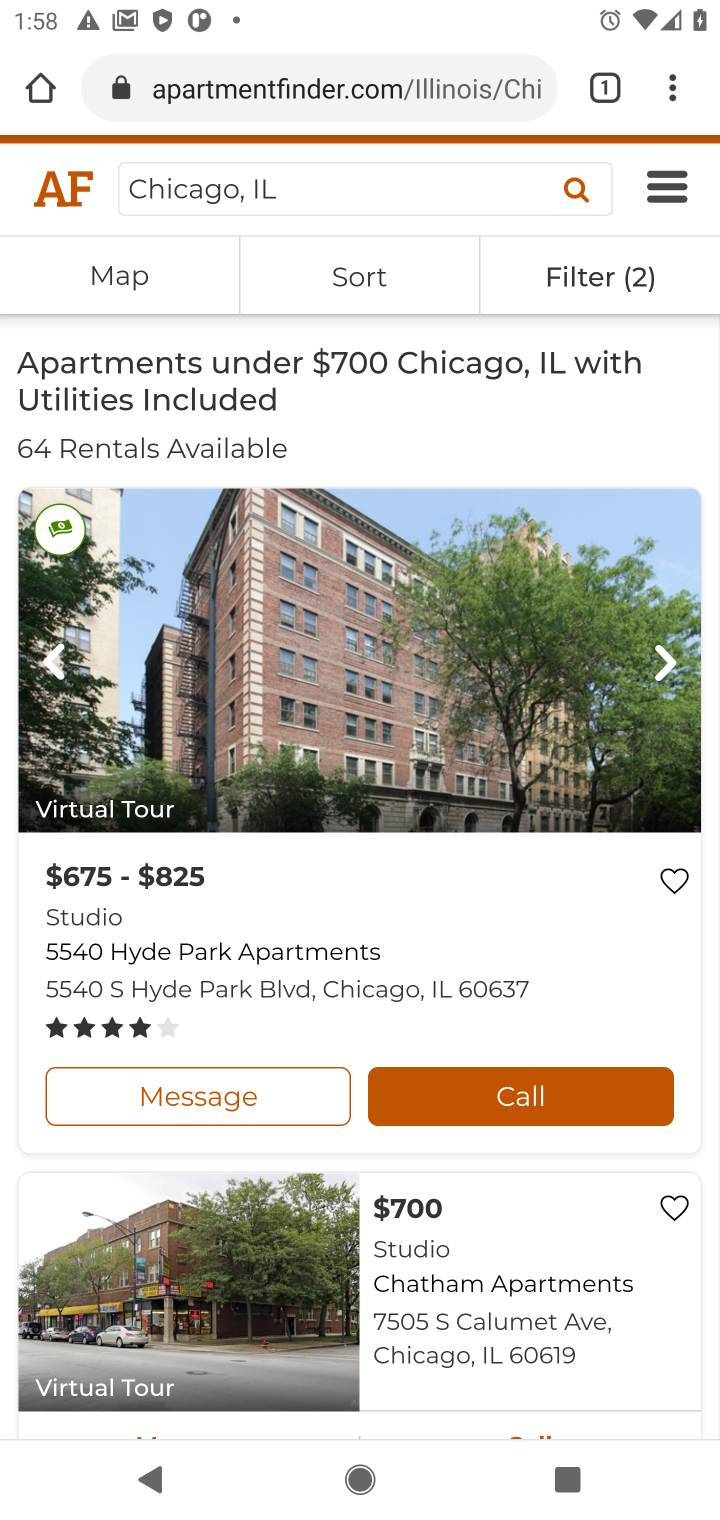
Step 28: click (633, 280)
Your task to perform on an android device: How much does a 3 bedroom apartment rent for in Chicago? Image 29: 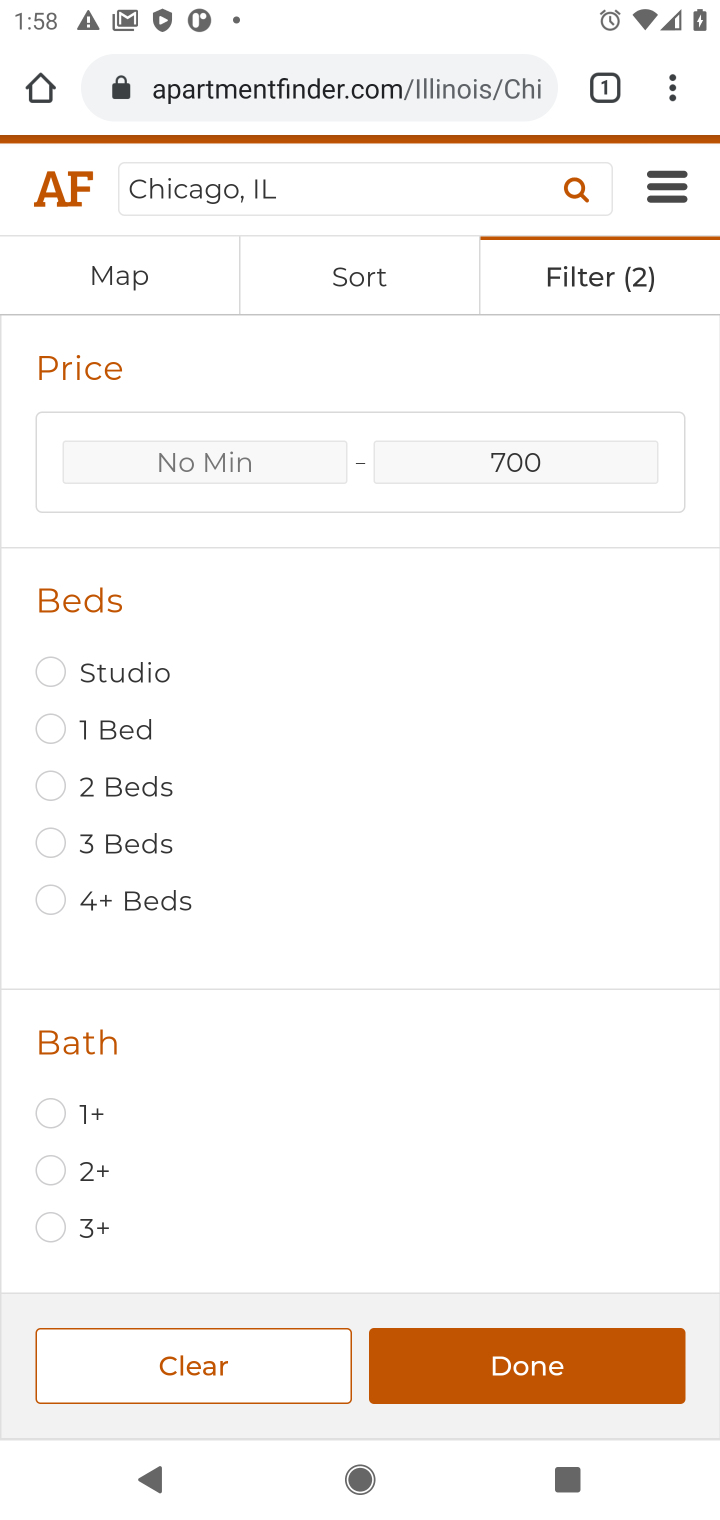
Step 29: click (45, 837)
Your task to perform on an android device: How much does a 3 bedroom apartment rent for in Chicago? Image 30: 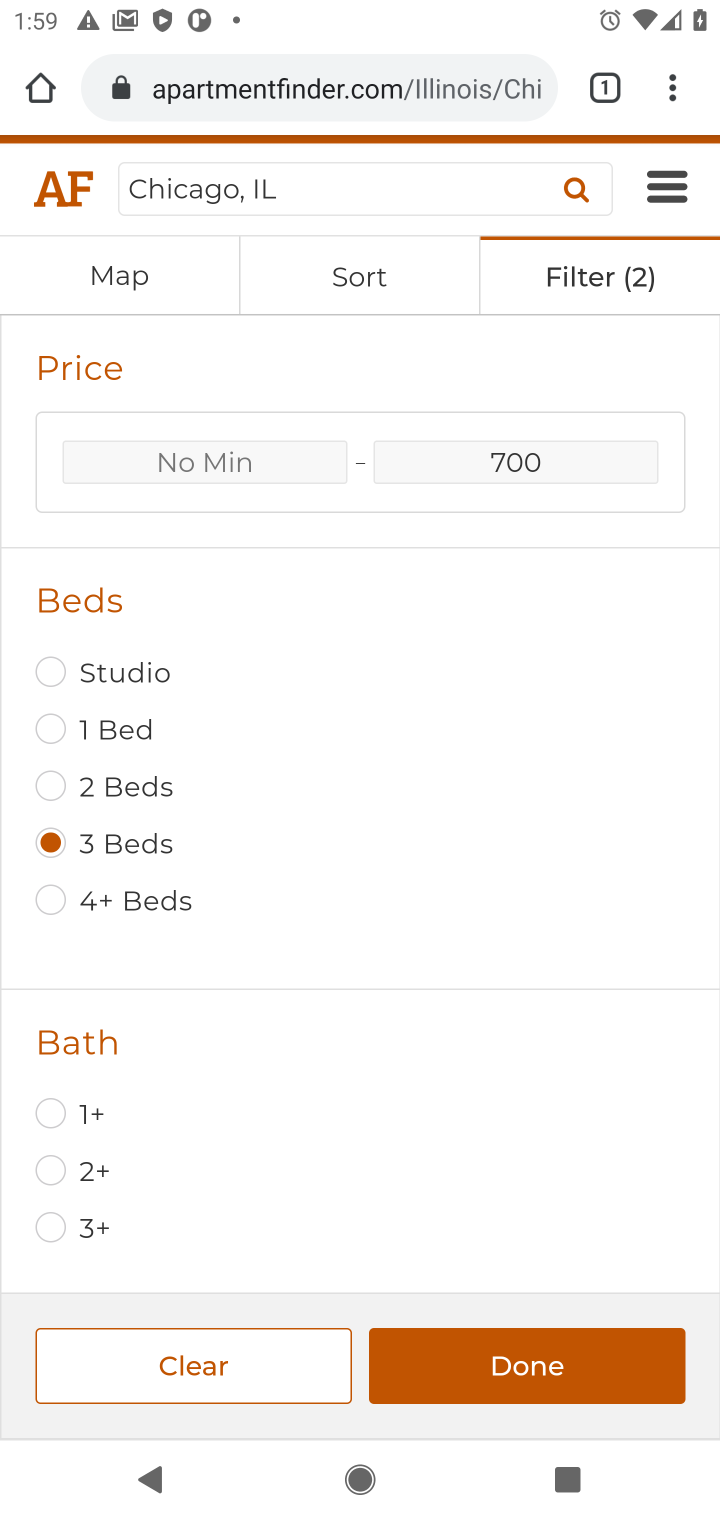
Step 30: click (520, 1365)
Your task to perform on an android device: How much does a 3 bedroom apartment rent for in Chicago? Image 31: 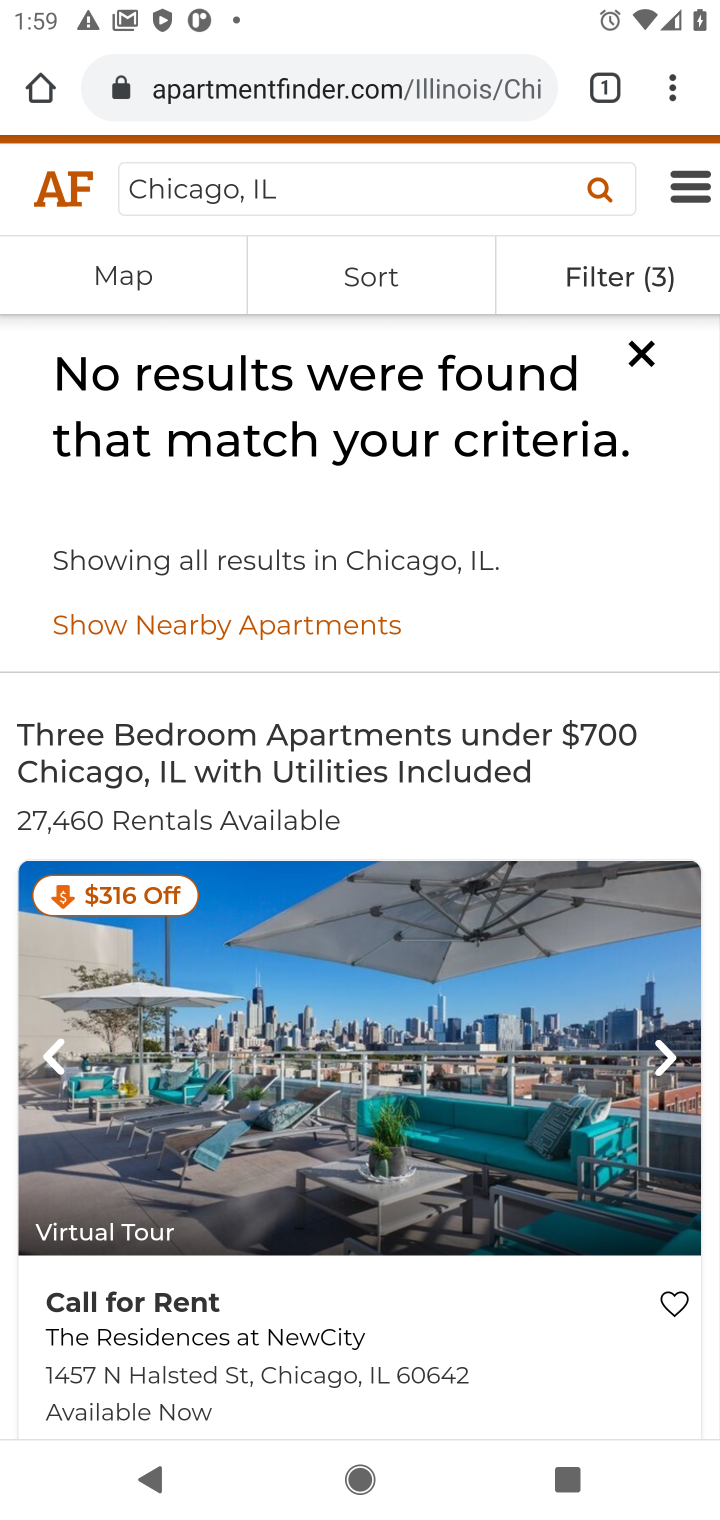
Step 31: task complete